Your task to perform on an android device: Search for the best rated 4k tvs on Walmart. Image 0: 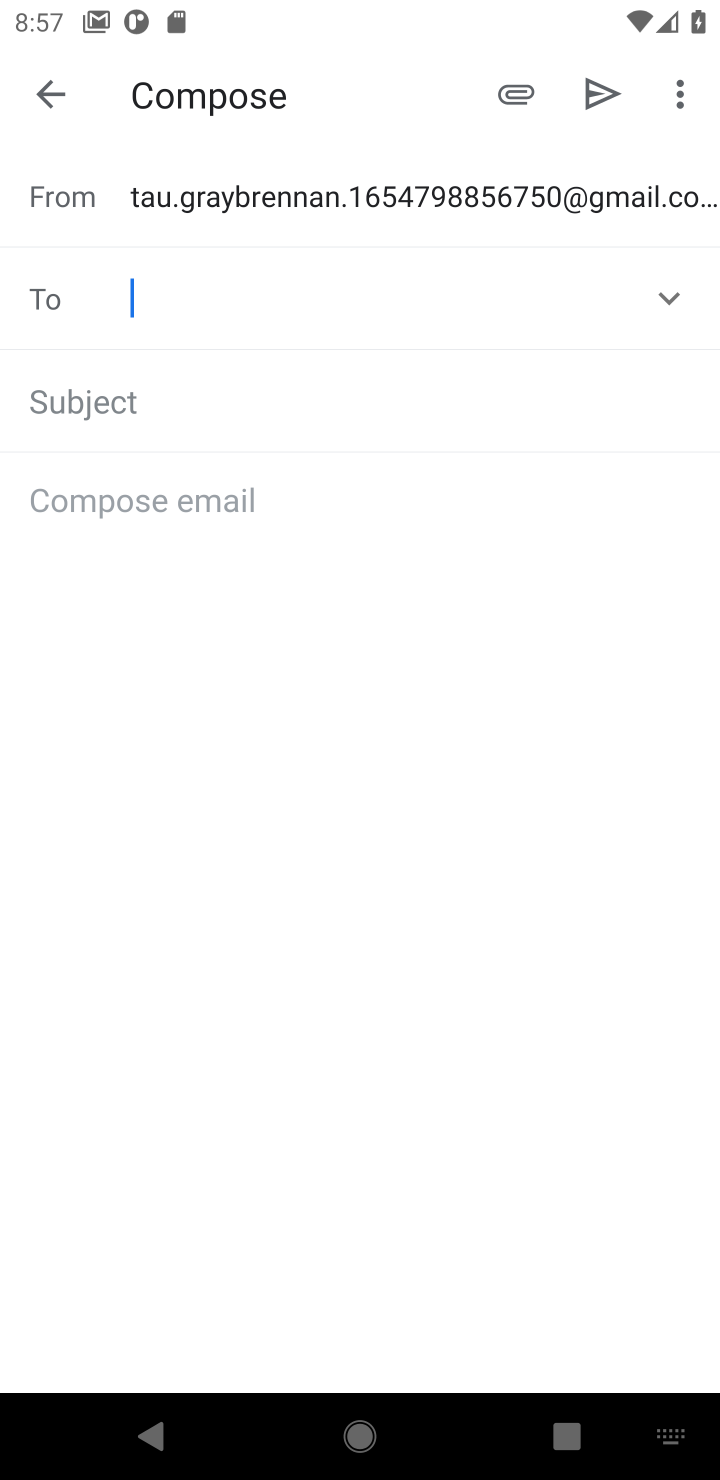
Step 0: press home button
Your task to perform on an android device: Search for the best rated 4k tvs on Walmart. Image 1: 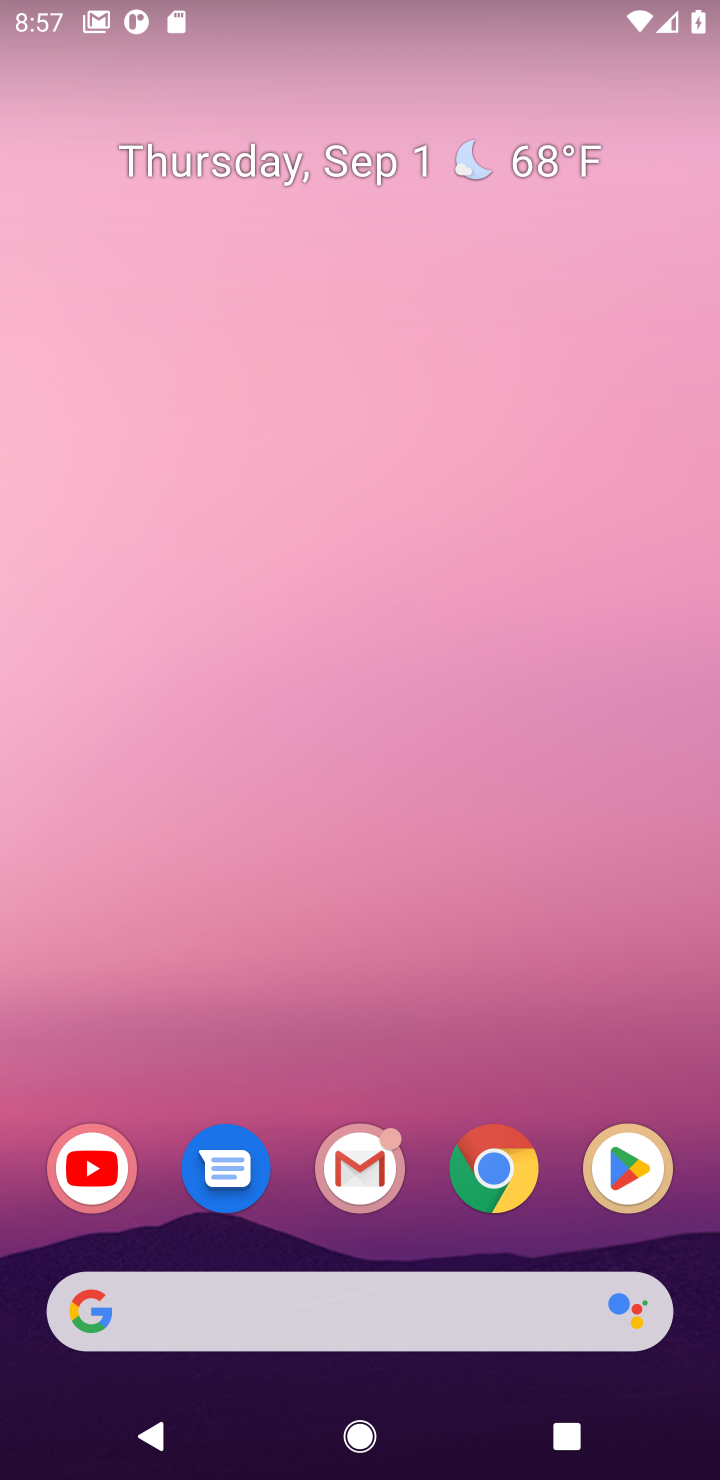
Step 1: click (356, 83)
Your task to perform on an android device: Search for the best rated 4k tvs on Walmart. Image 2: 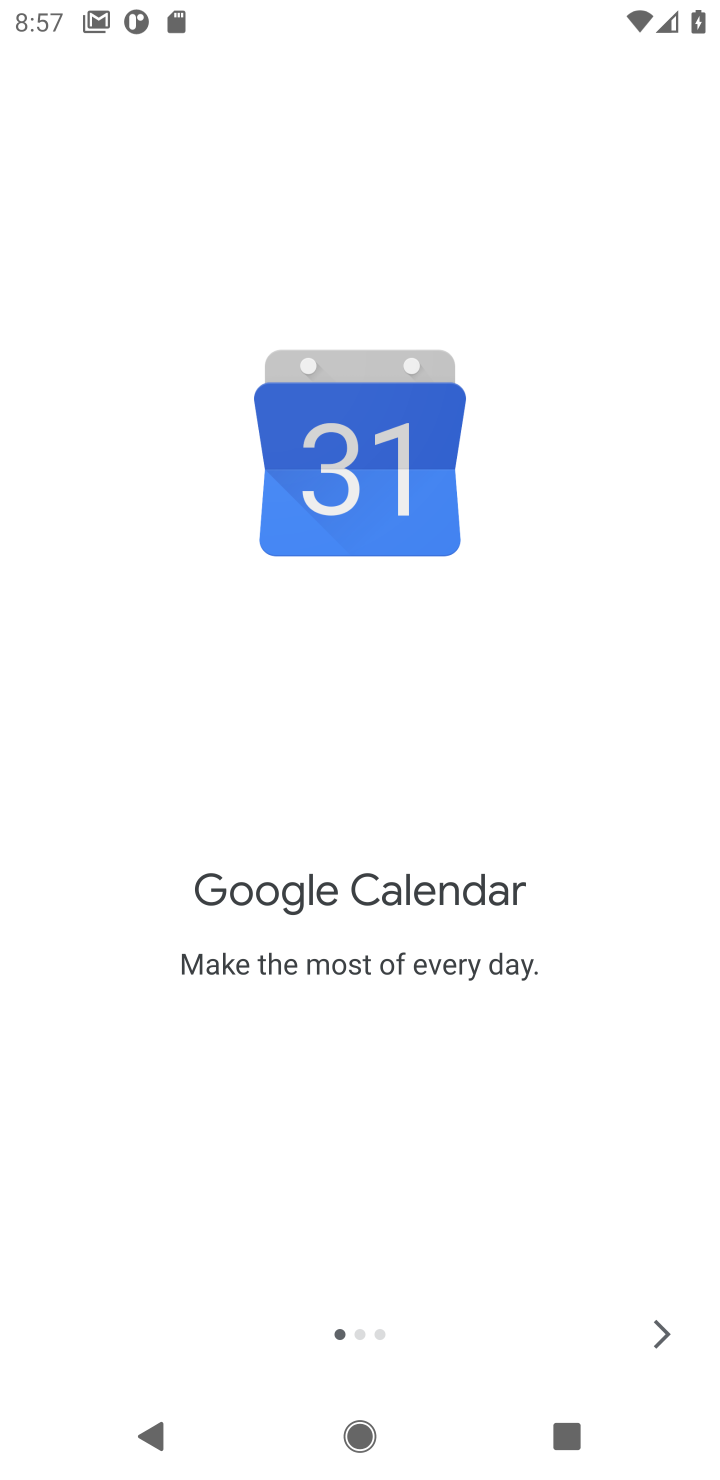
Step 2: press home button
Your task to perform on an android device: Search for the best rated 4k tvs on Walmart. Image 3: 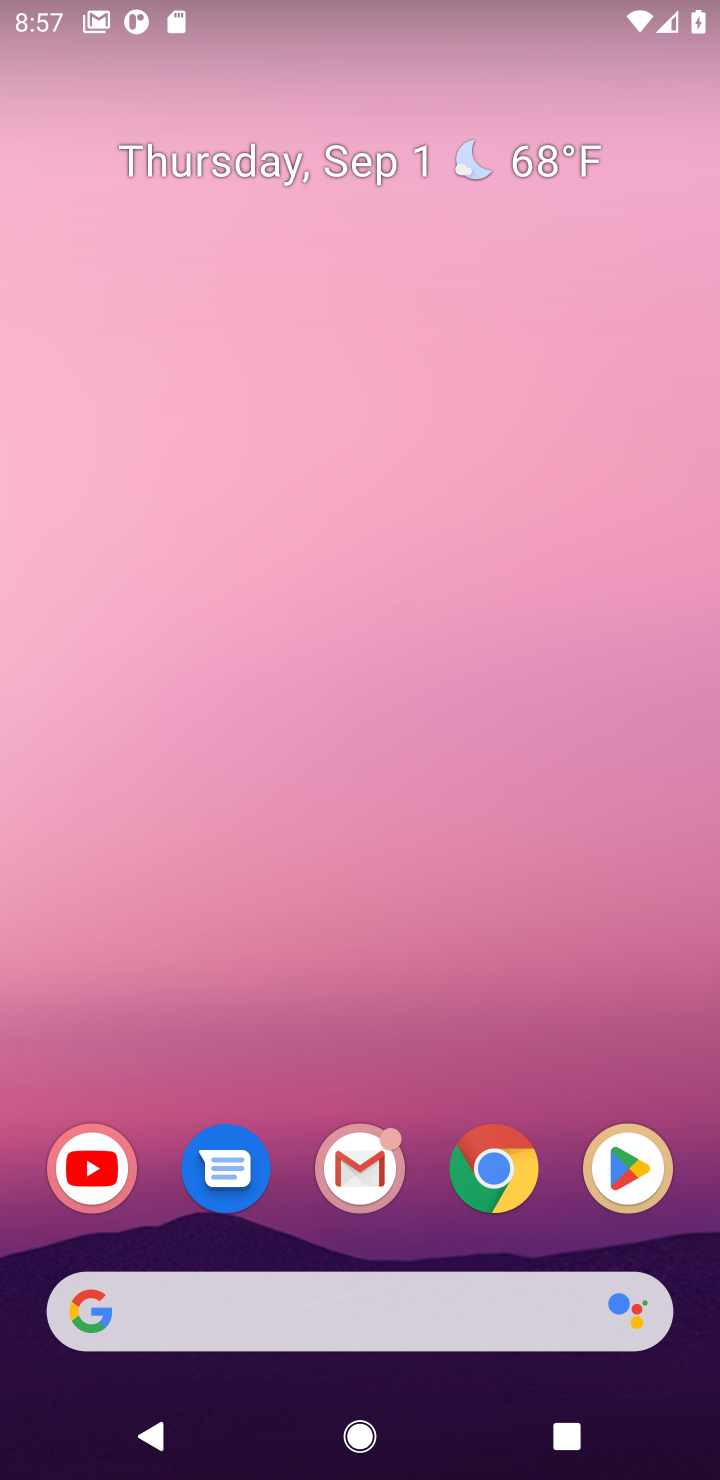
Step 3: drag from (276, 1281) to (411, 379)
Your task to perform on an android device: Search for the best rated 4k tvs on Walmart. Image 4: 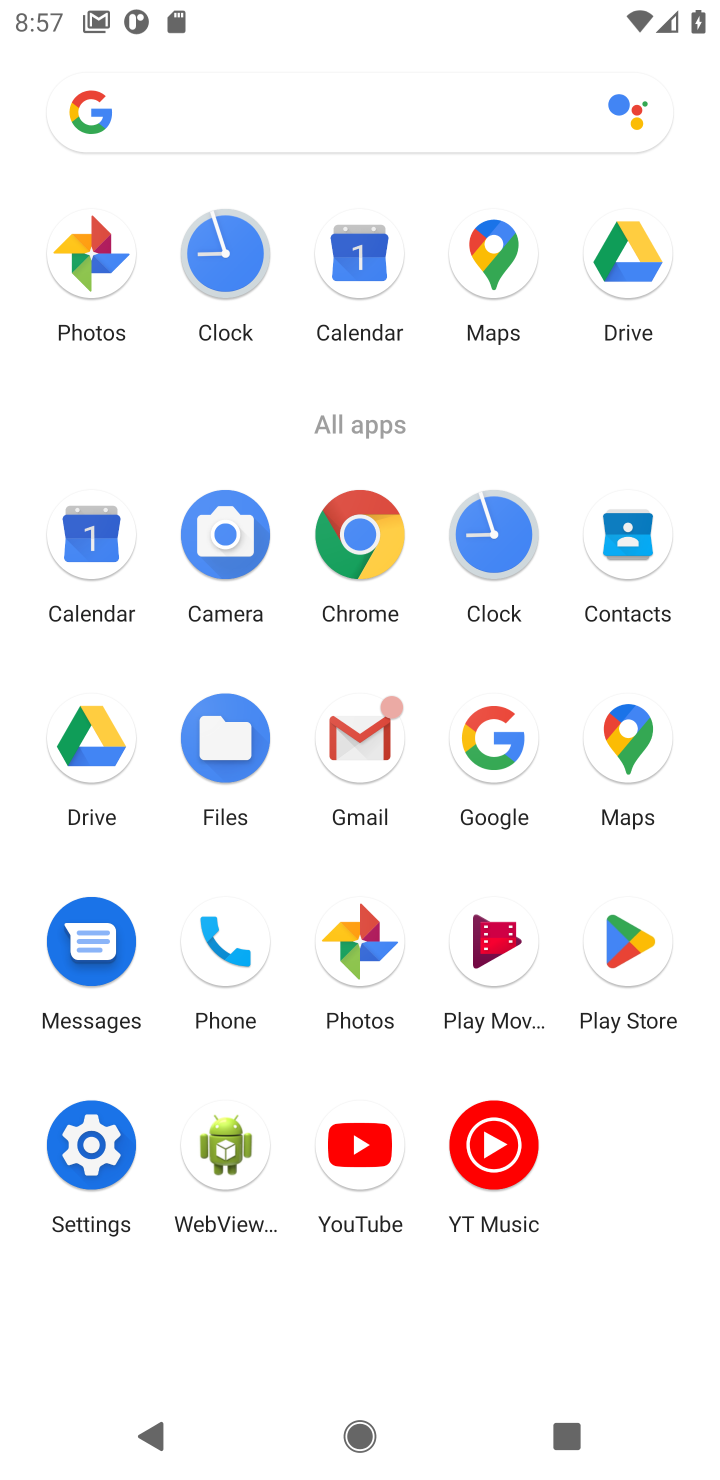
Step 4: click (496, 725)
Your task to perform on an android device: Search for the best rated 4k tvs on Walmart. Image 5: 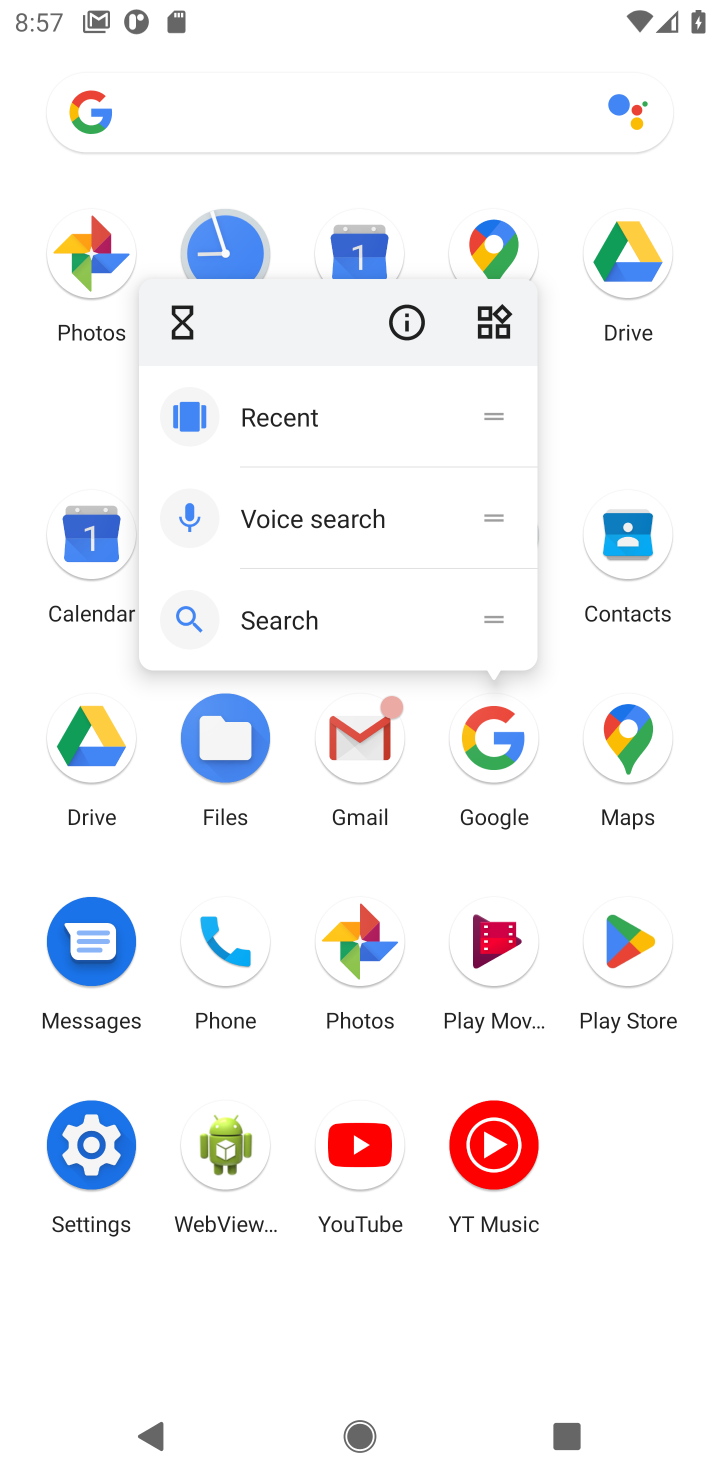
Step 5: click (497, 727)
Your task to perform on an android device: Search for the best rated 4k tvs on Walmart. Image 6: 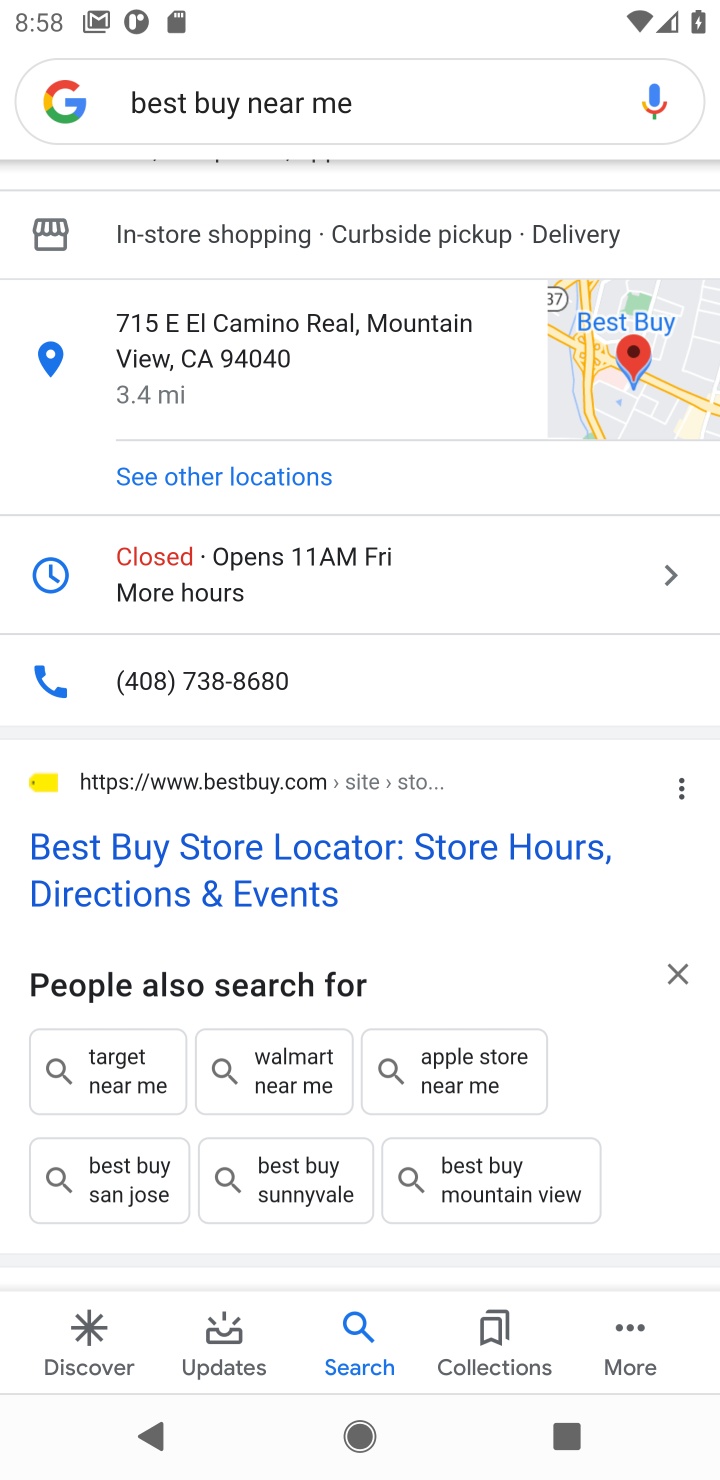
Step 6: click (458, 86)
Your task to perform on an android device: Search for the best rated 4k tvs on Walmart. Image 7: 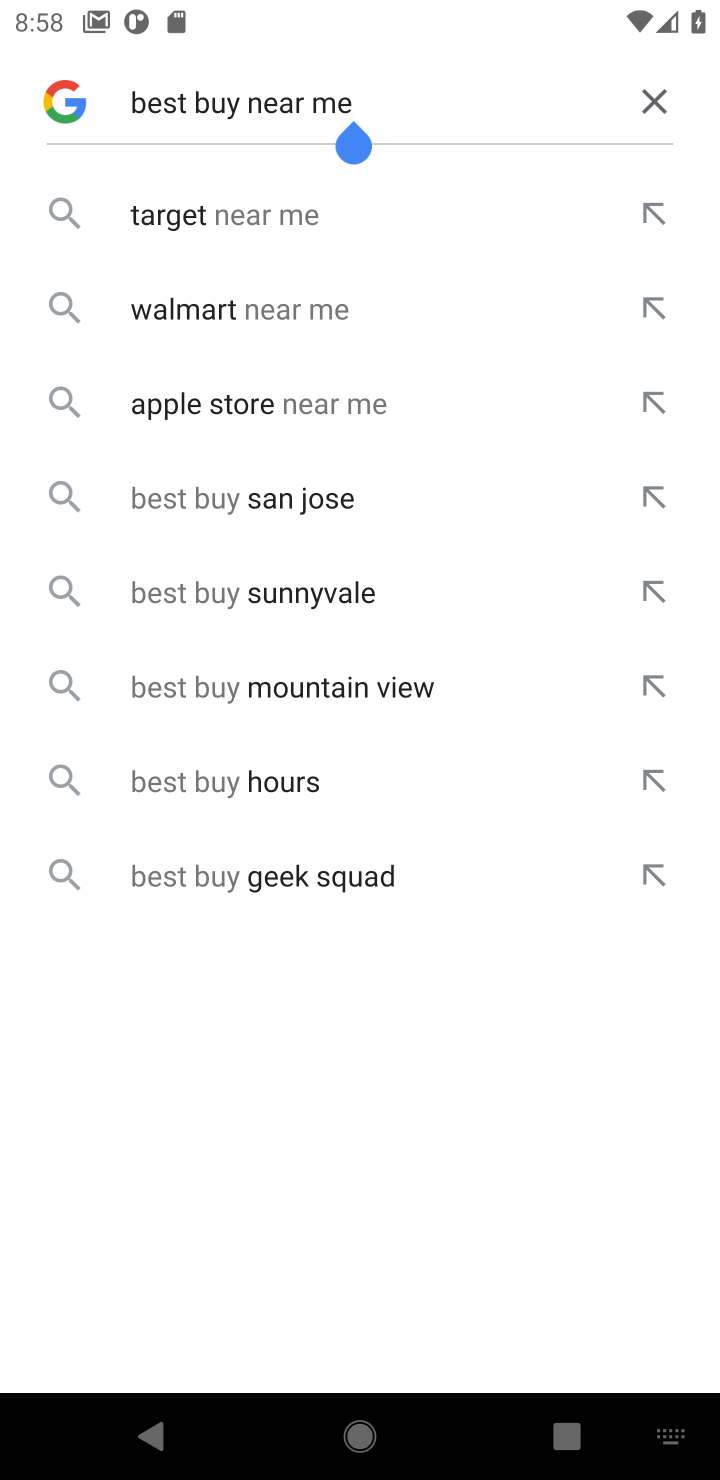
Step 7: click (648, 109)
Your task to perform on an android device: Search for the best rated 4k tvs on Walmart. Image 8: 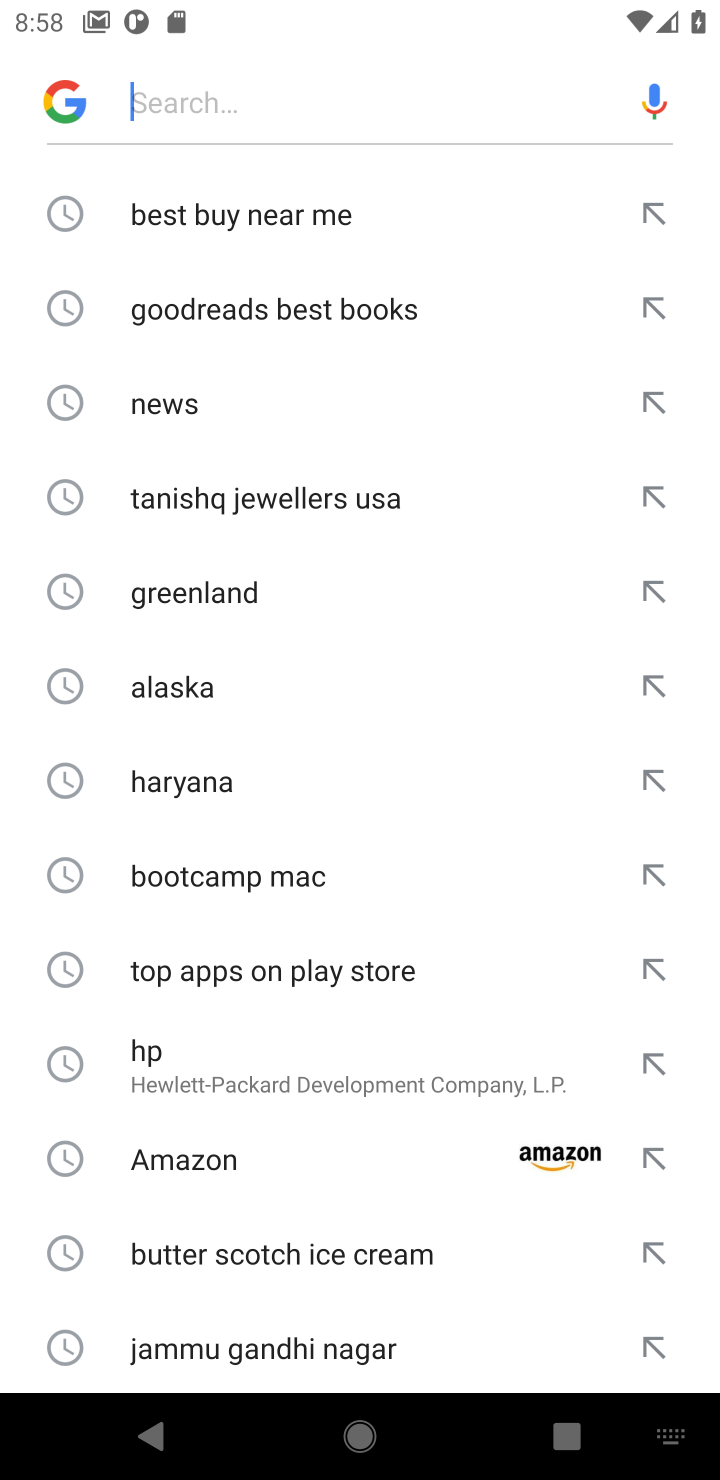
Step 8: click (416, 114)
Your task to perform on an android device: Search for the best rated 4k tvs on Walmart. Image 9: 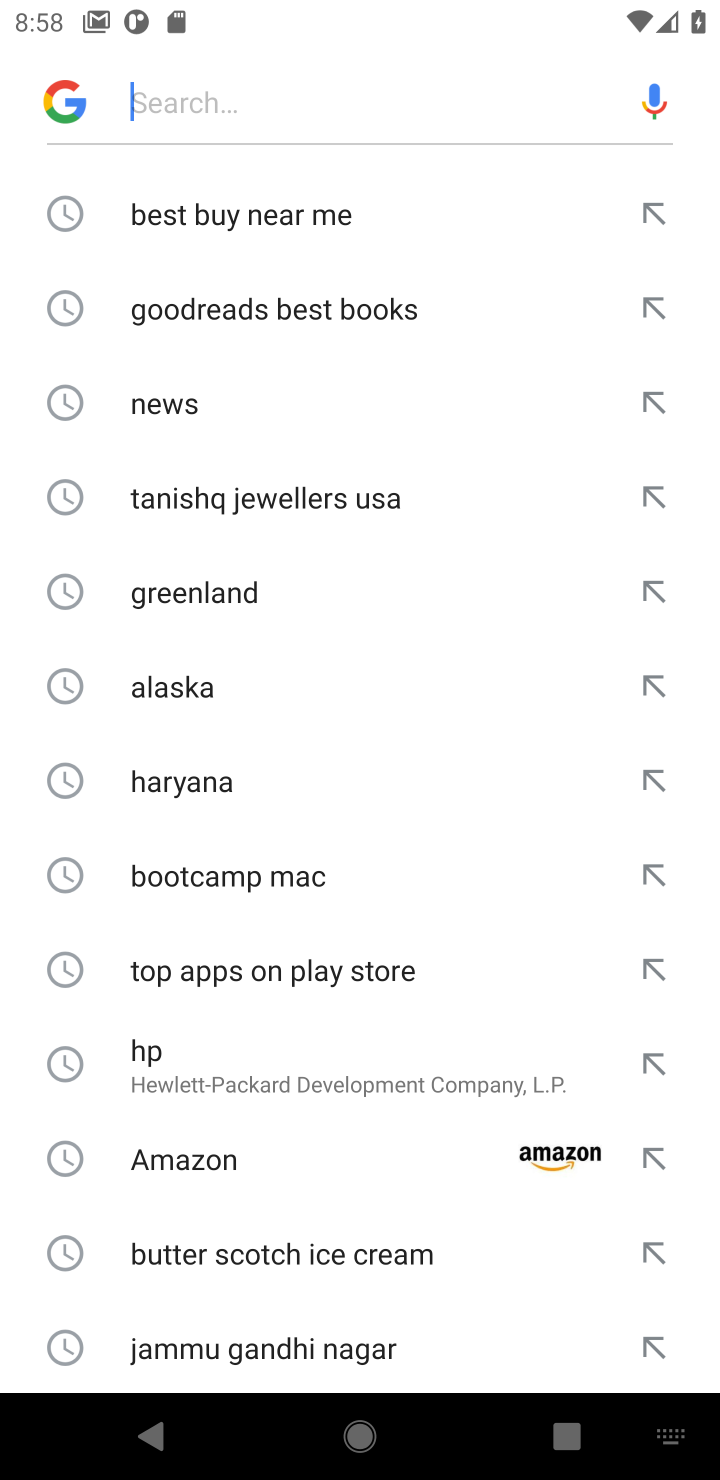
Step 9: type "Walmart "
Your task to perform on an android device: Search for the best rated 4k tvs on Walmart. Image 10: 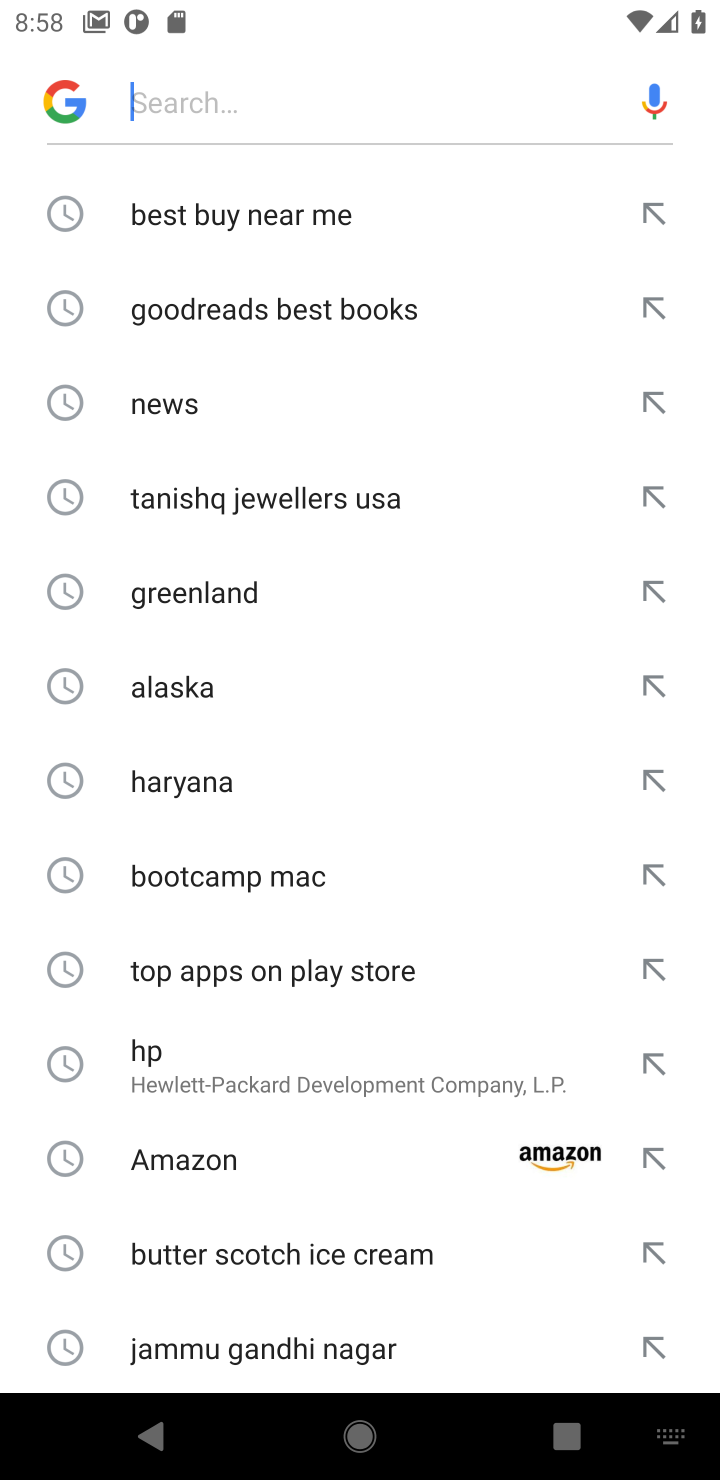
Step 10: click (313, 94)
Your task to perform on an android device: Search for the best rated 4k tvs on Walmart. Image 11: 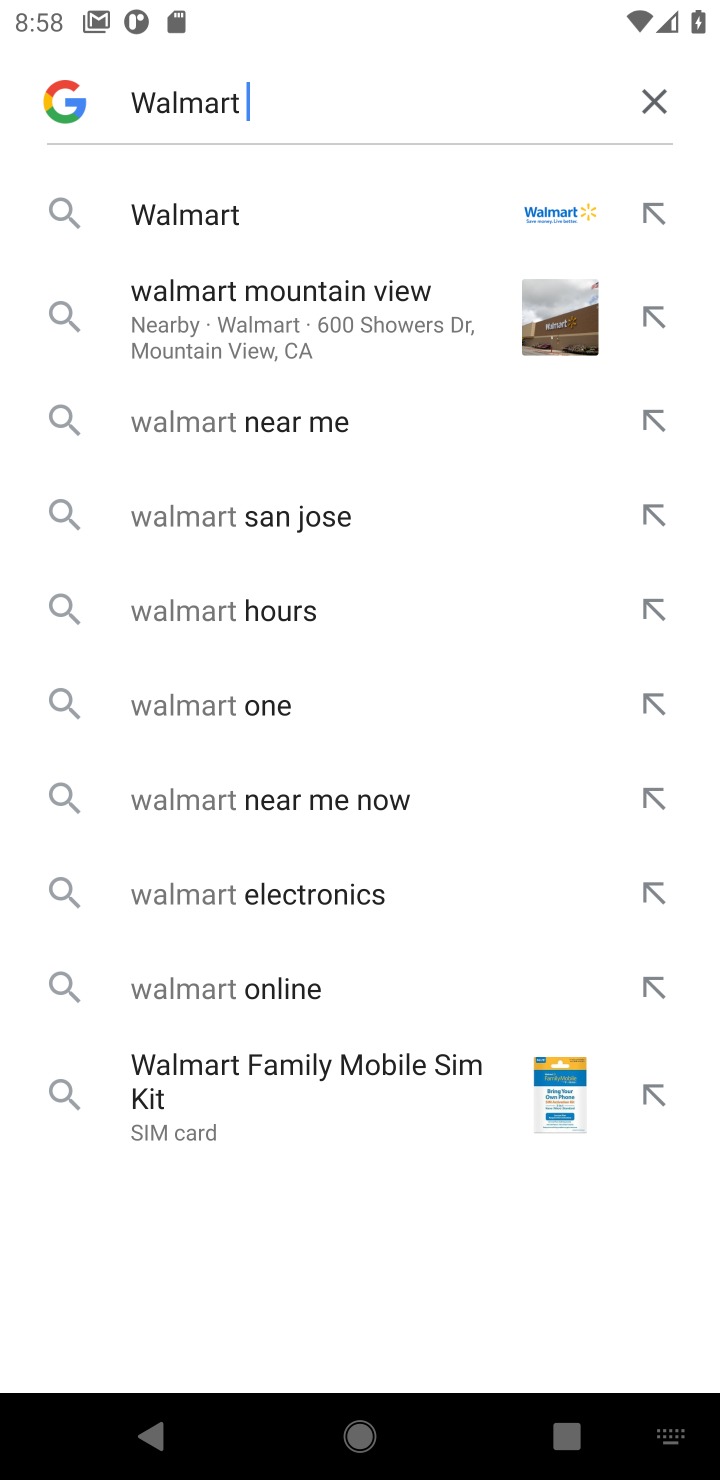
Step 11: type "Walmart. "
Your task to perform on an android device: Search for the best rated 4k tvs on Walmart. Image 12: 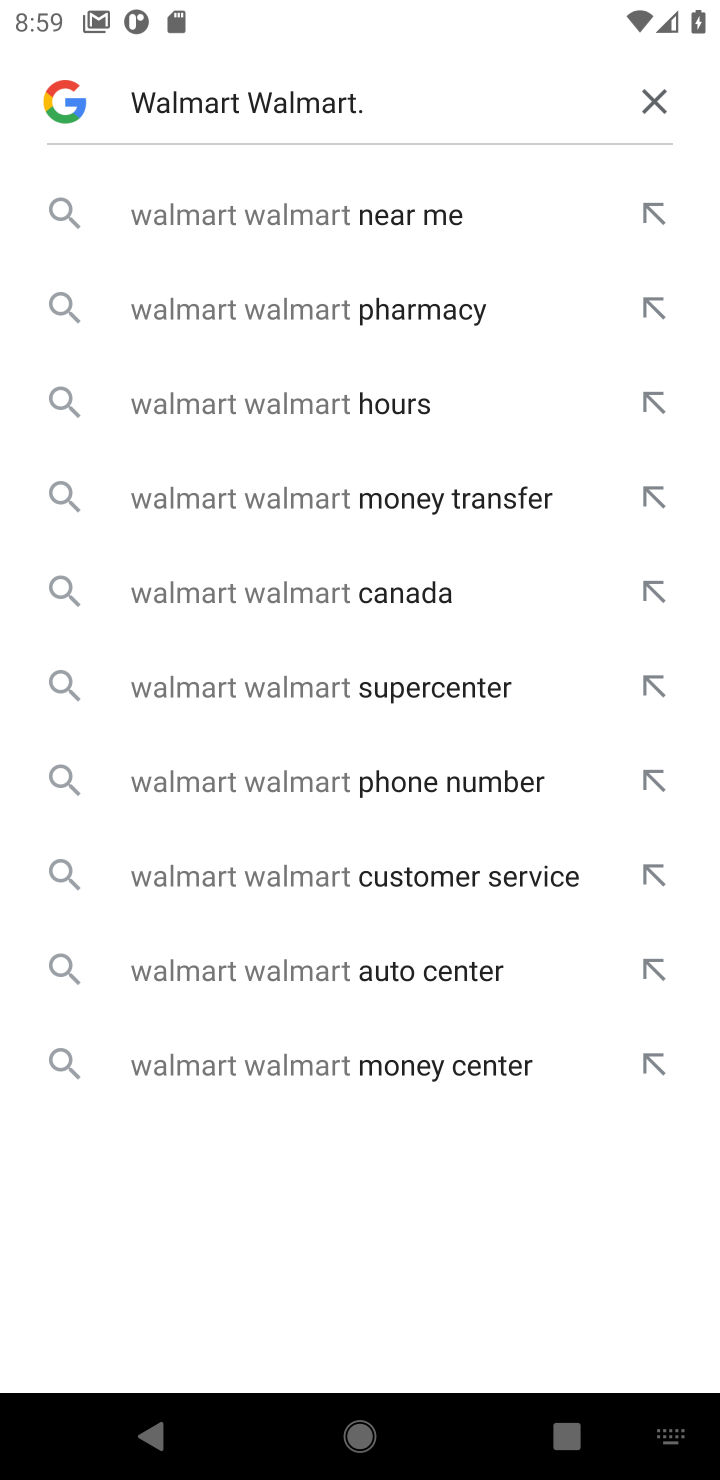
Step 12: click (267, 86)
Your task to perform on an android device: Search for the best rated 4k tvs on Walmart. Image 13: 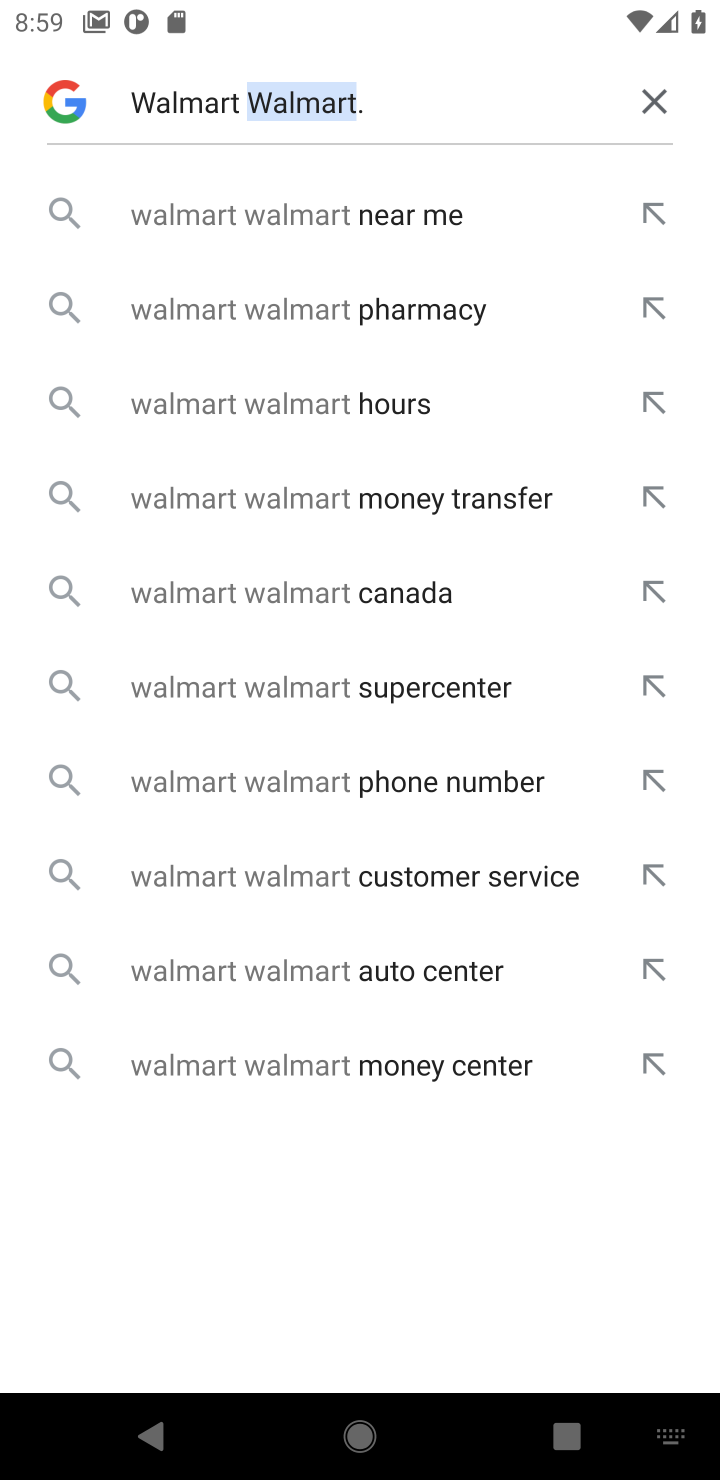
Step 13: click (275, 104)
Your task to perform on an android device: Search for the best rated 4k tvs on Walmart. Image 14: 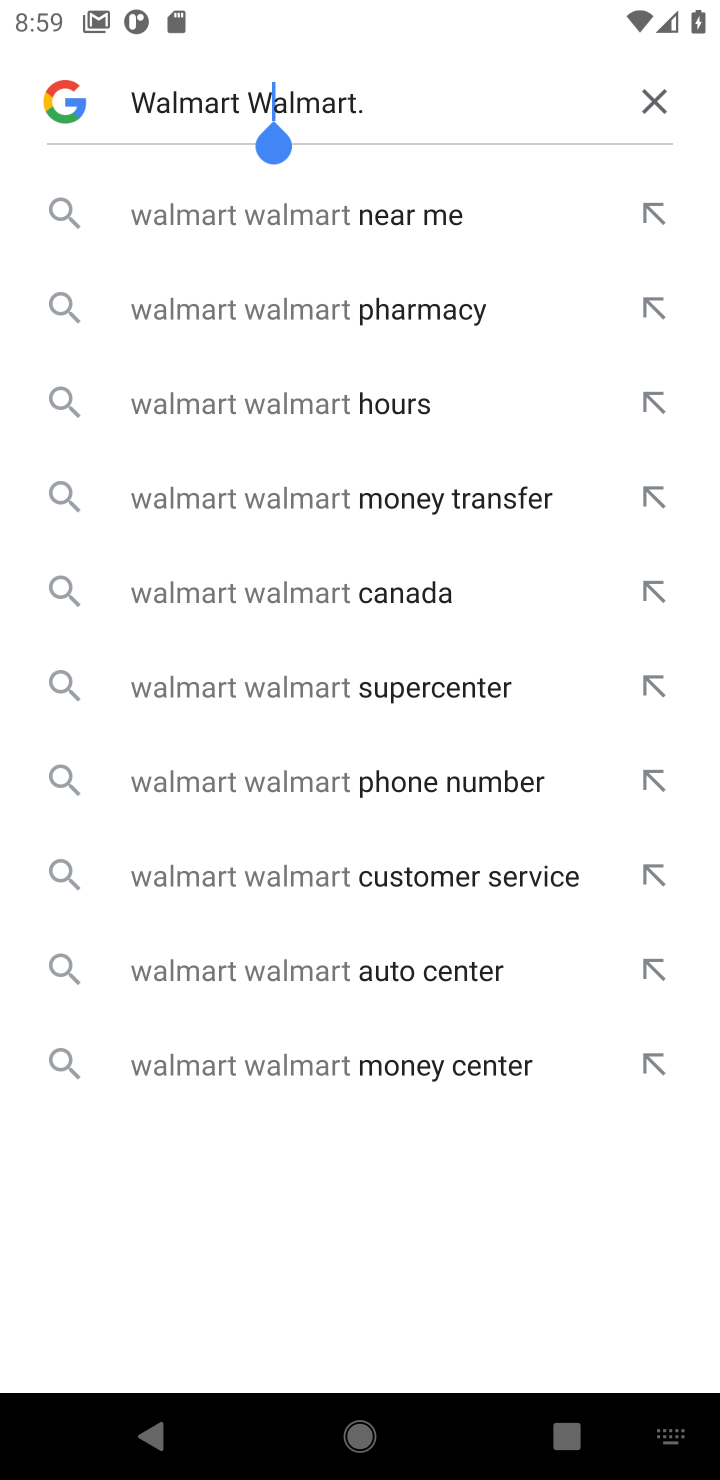
Step 14: click (303, 87)
Your task to perform on an android device: Search for the best rated 4k tvs on Walmart. Image 15: 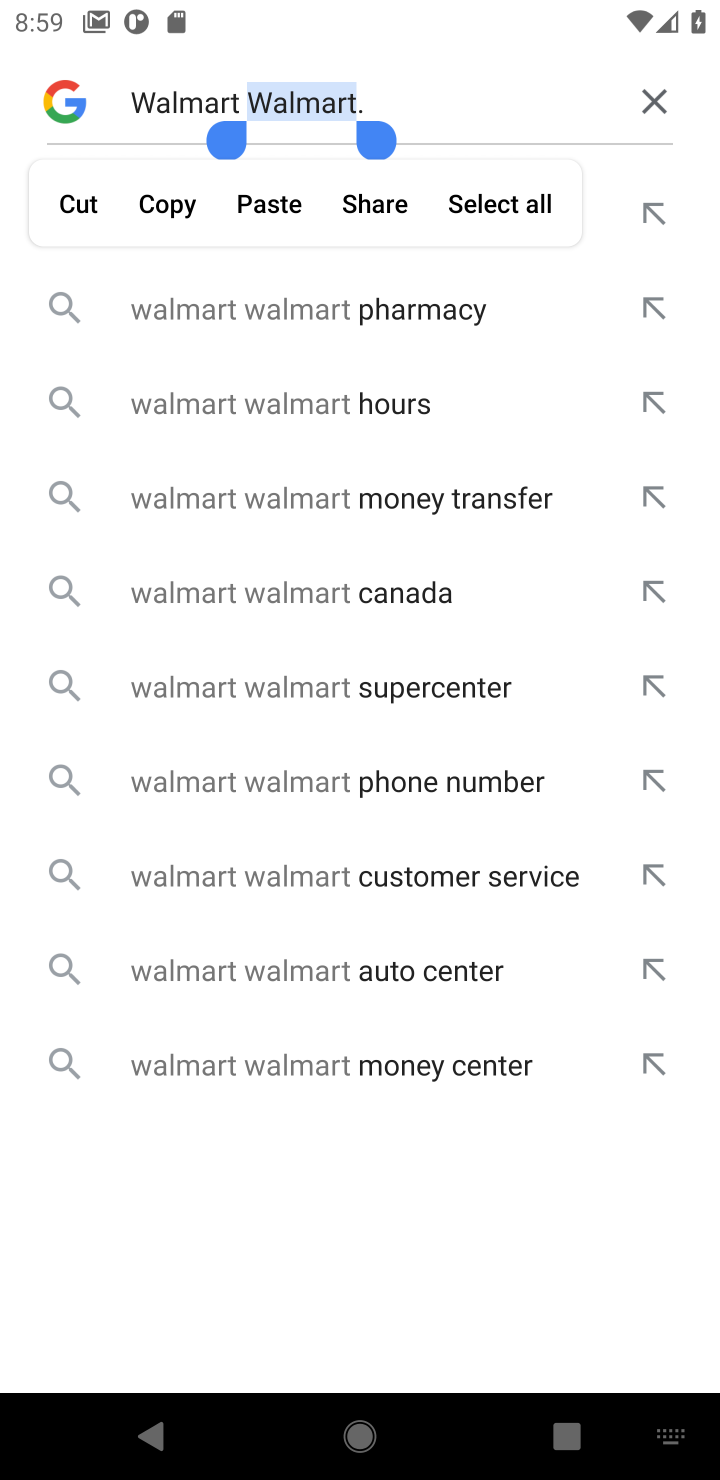
Step 15: click (88, 198)
Your task to perform on an android device: Search for the best rated 4k tvs on Walmart. Image 16: 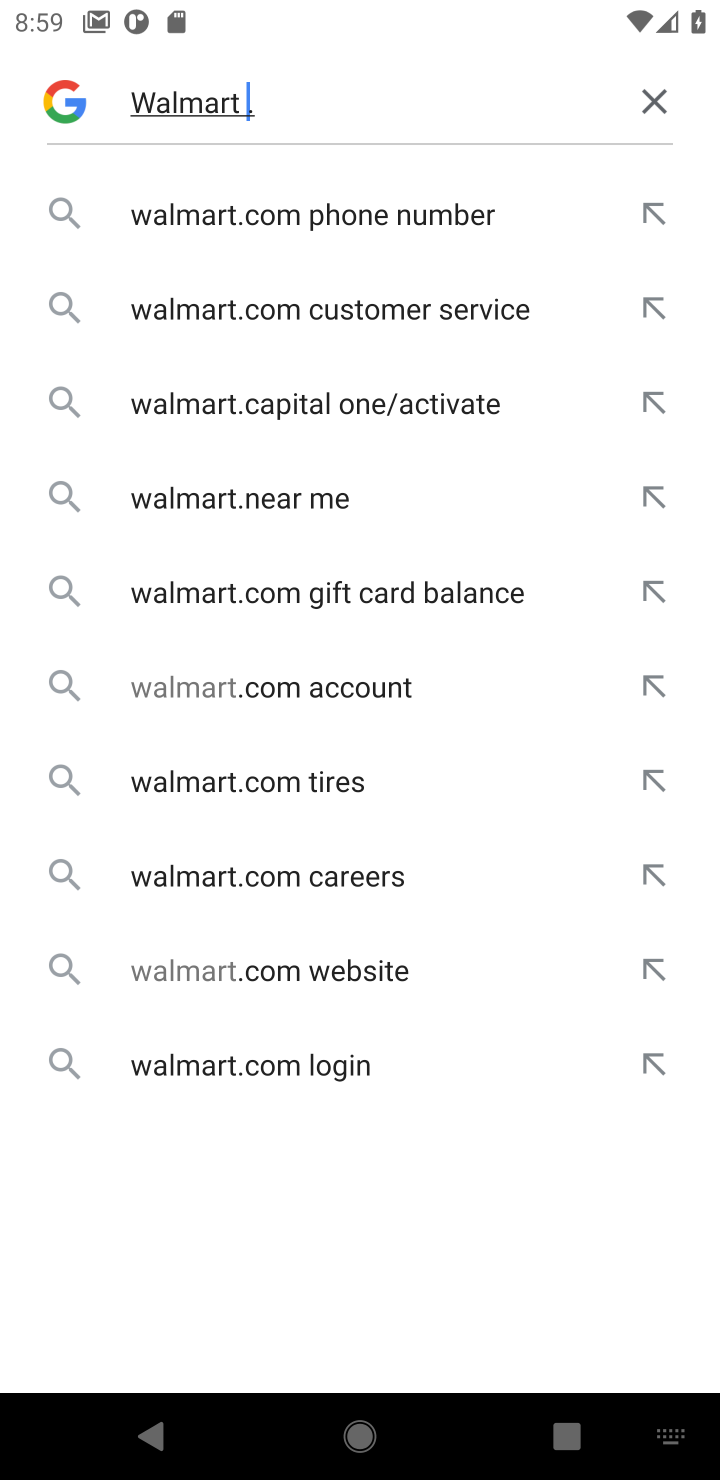
Step 16: click (352, 347)
Your task to perform on an android device: Search for the best rated 4k tvs on Walmart. Image 17: 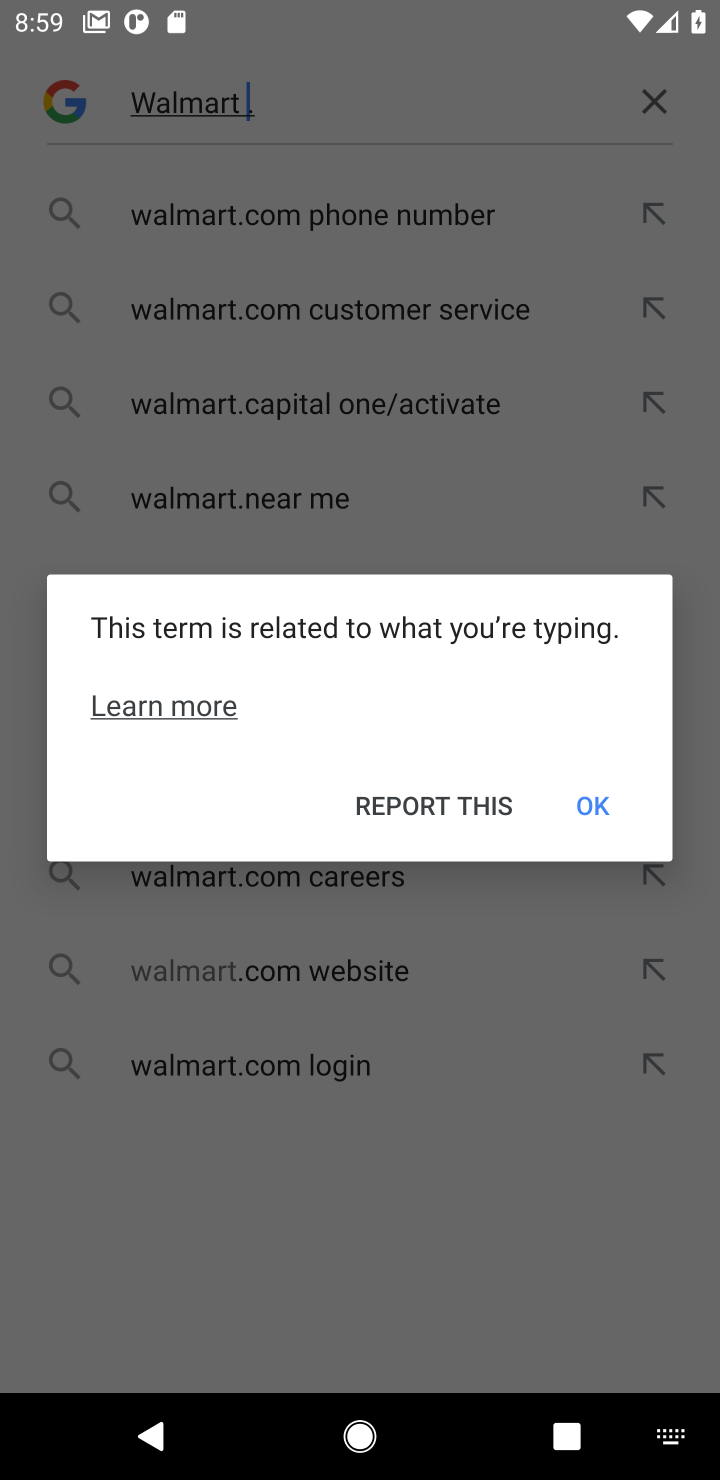
Step 17: click (571, 775)
Your task to perform on an android device: Search for the best rated 4k tvs on Walmart. Image 18: 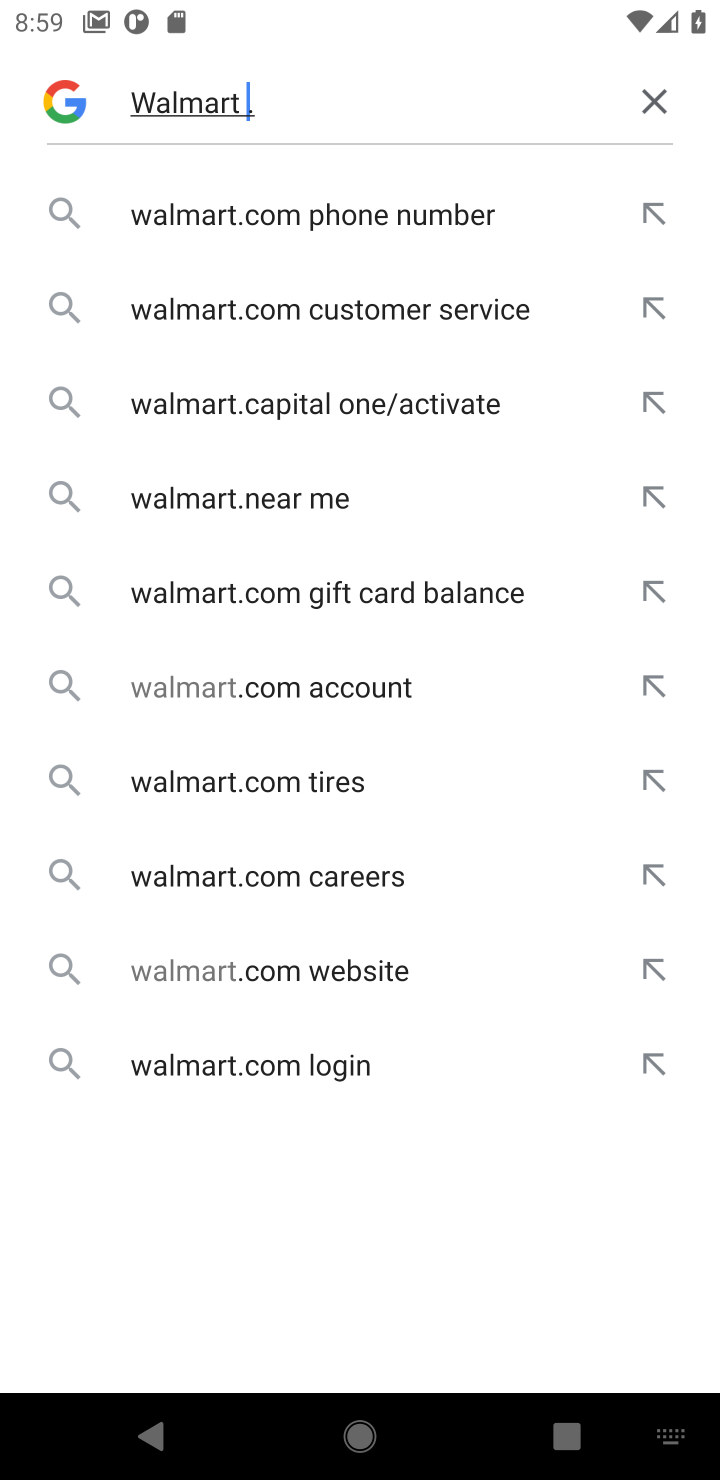
Step 18: click (263, 509)
Your task to perform on an android device: Search for the best rated 4k tvs on Walmart. Image 19: 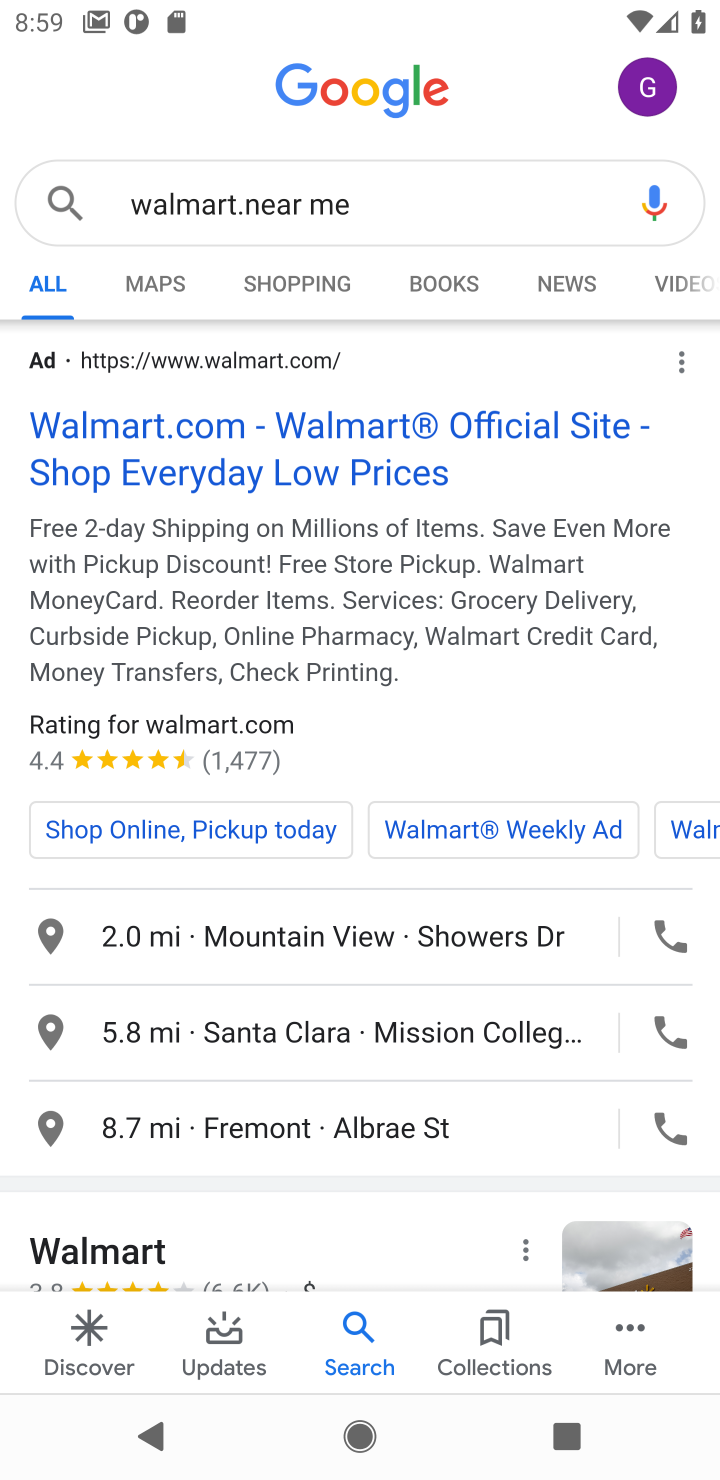
Step 19: click (299, 436)
Your task to perform on an android device: Search for the best rated 4k tvs on Walmart. Image 20: 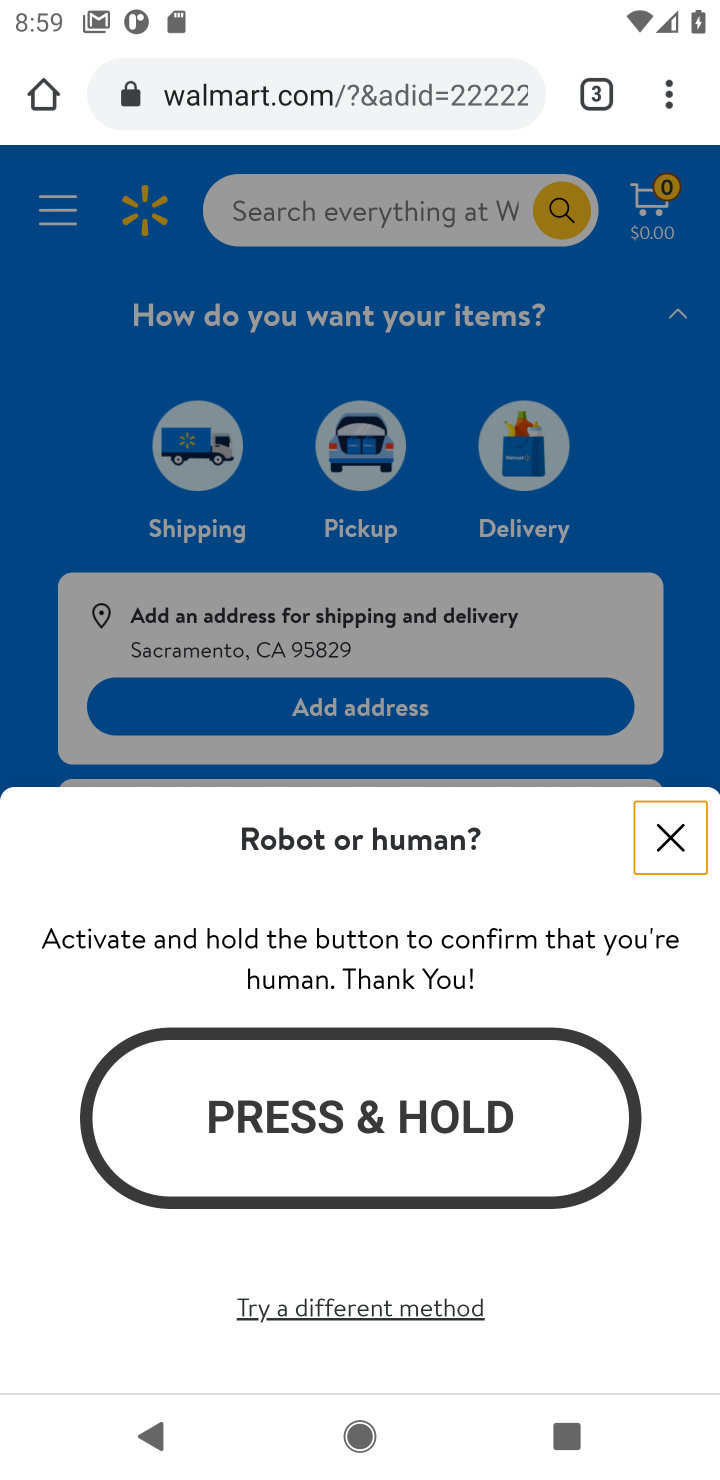
Step 20: click (339, 212)
Your task to perform on an android device: Search for the best rated 4k tvs on Walmart. Image 21: 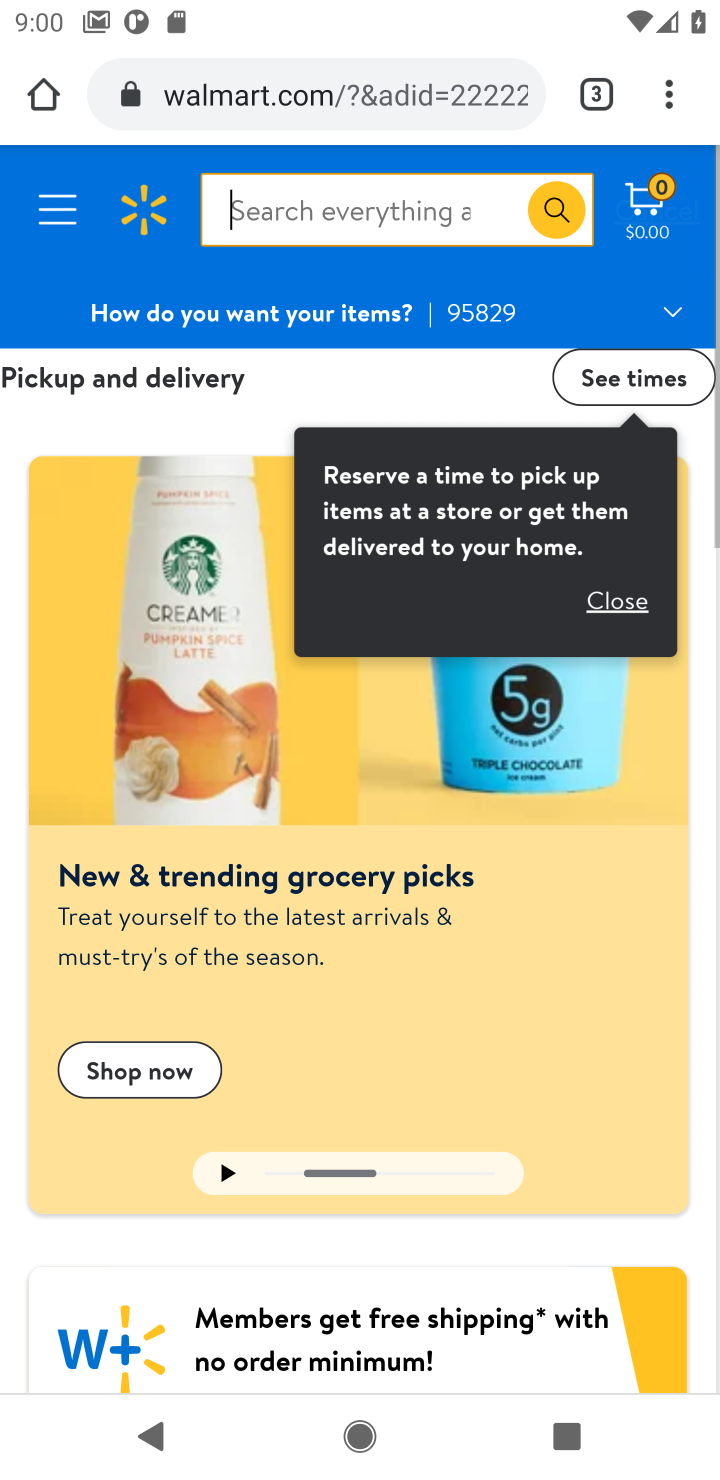
Step 21: click (339, 195)
Your task to perform on an android device: Search for the best rated 4k tvs on Walmart. Image 22: 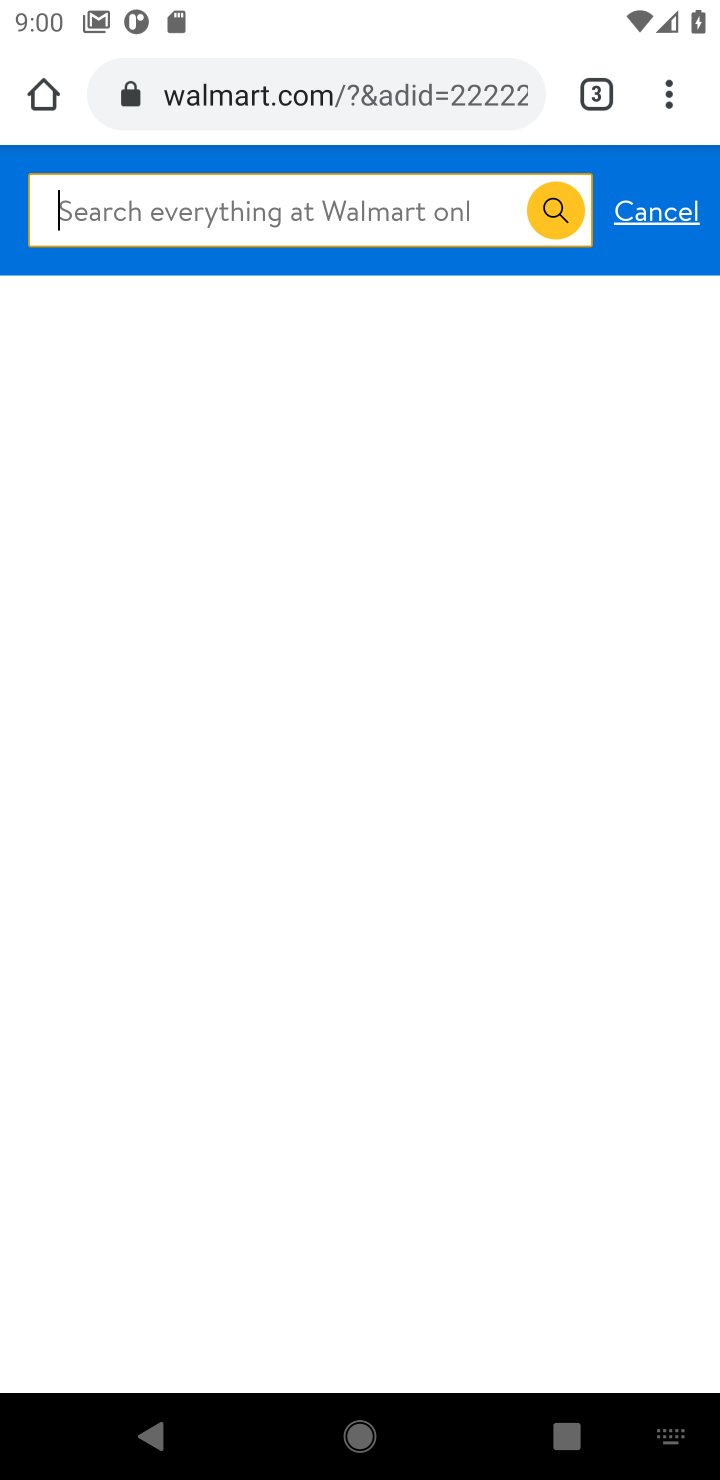
Step 22: type " 4k tvs  "
Your task to perform on an android device: Search for the best rated 4k tvs on Walmart. Image 23: 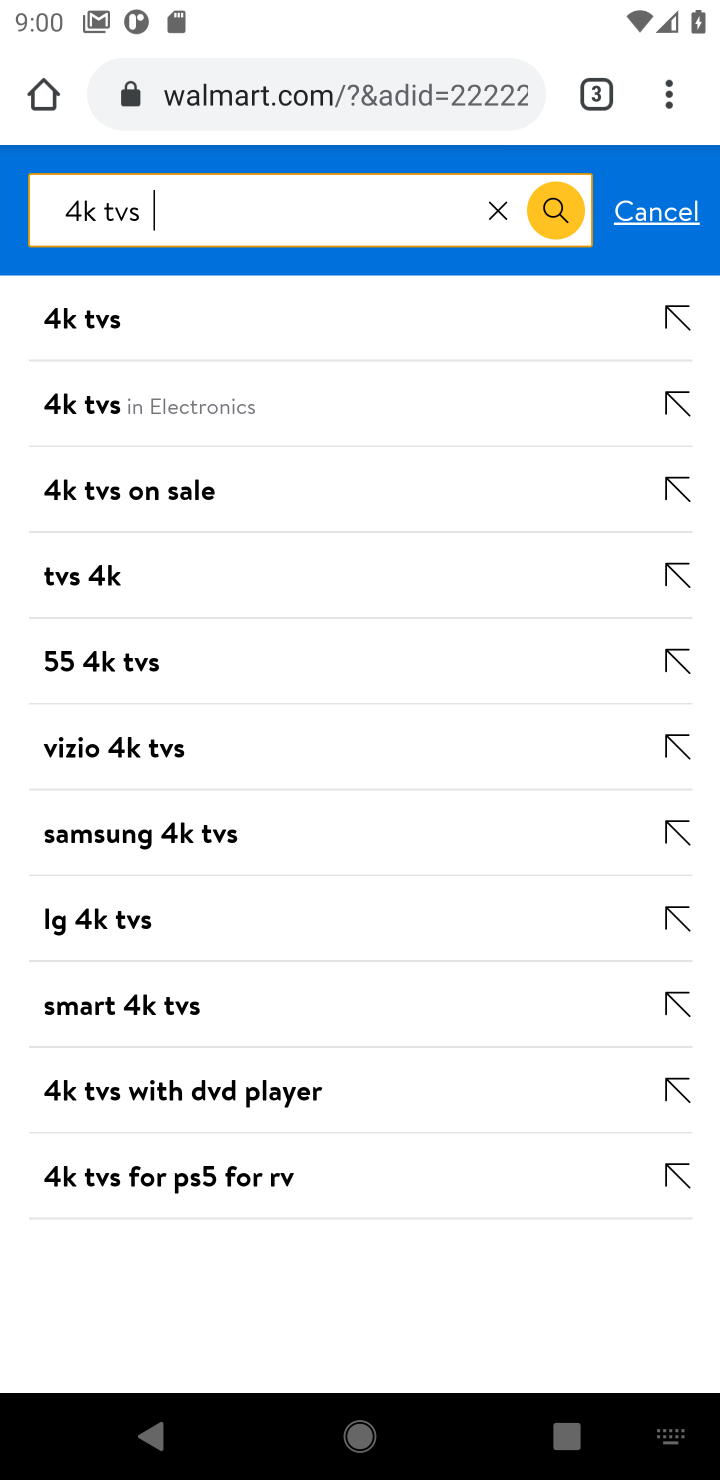
Step 23: click (242, 327)
Your task to perform on an android device: Search for the best rated 4k tvs on Walmart. Image 24: 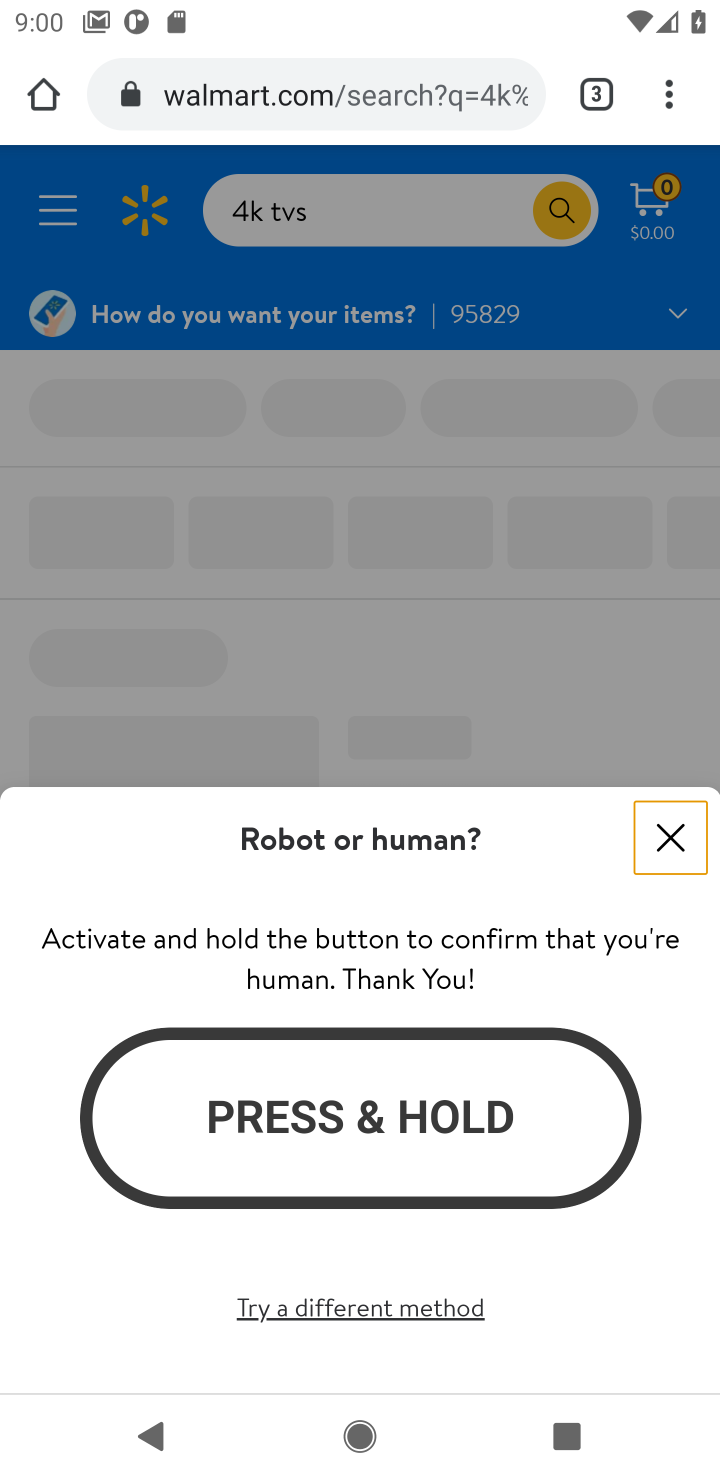
Step 24: click (681, 836)
Your task to perform on an android device: Search for the best rated 4k tvs on Walmart. Image 25: 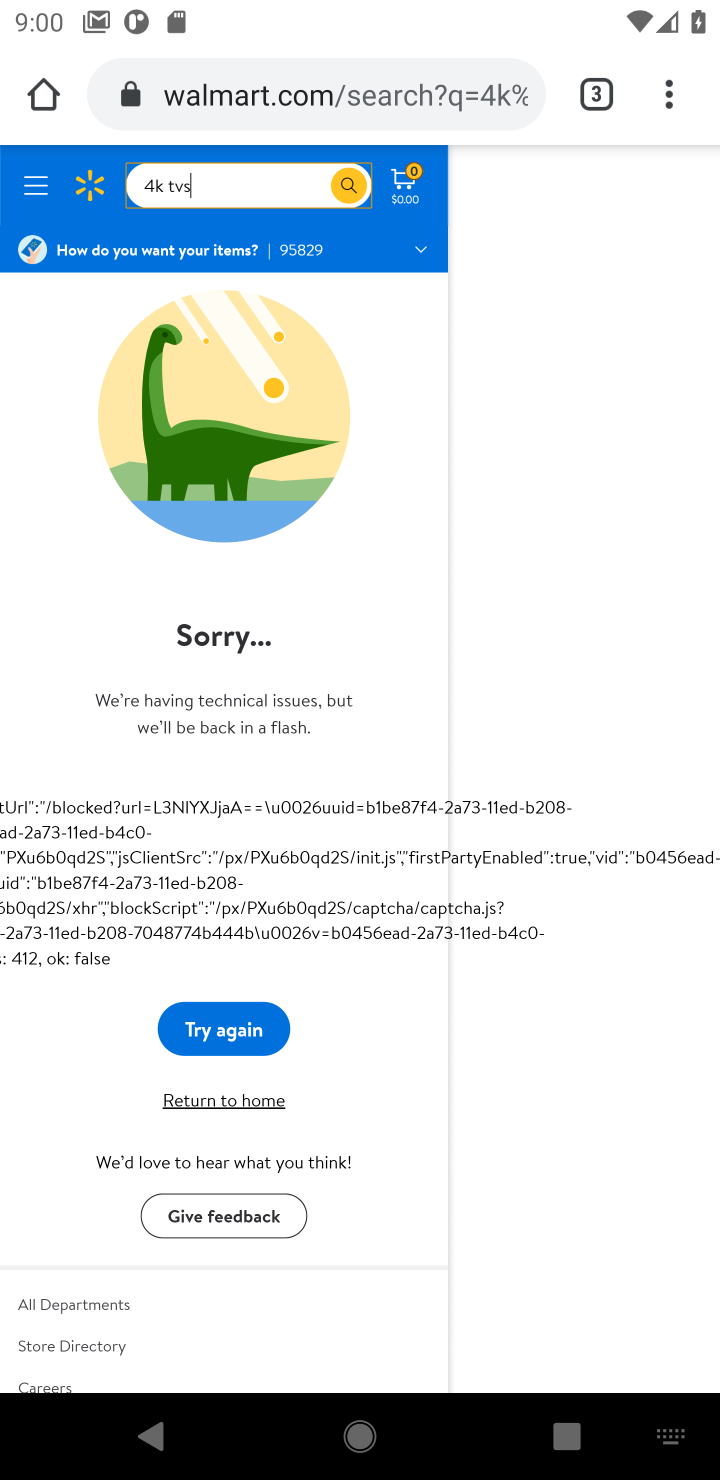
Step 25: click (226, 995)
Your task to perform on an android device: Search for the best rated 4k tvs on Walmart. Image 26: 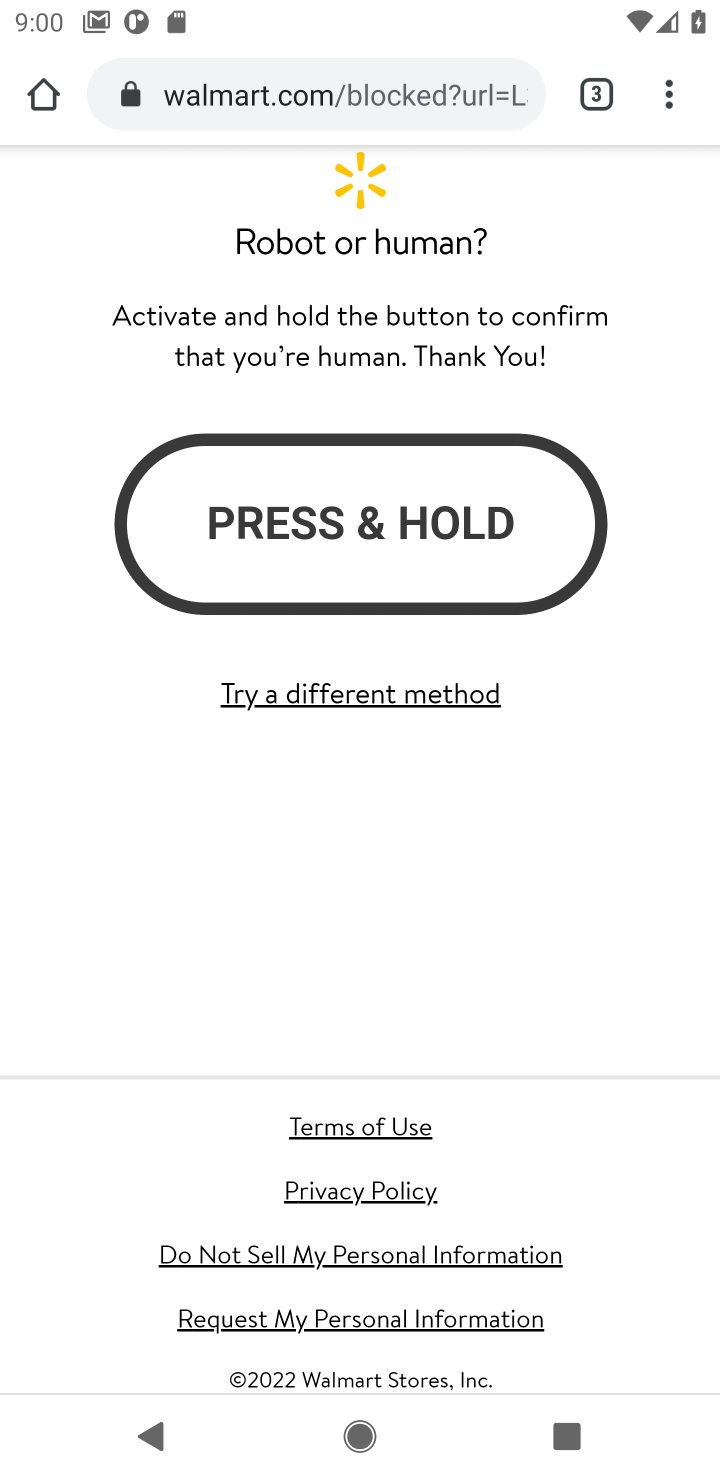
Step 26: click (393, 547)
Your task to perform on an android device: Search for the best rated 4k tvs on Walmart. Image 27: 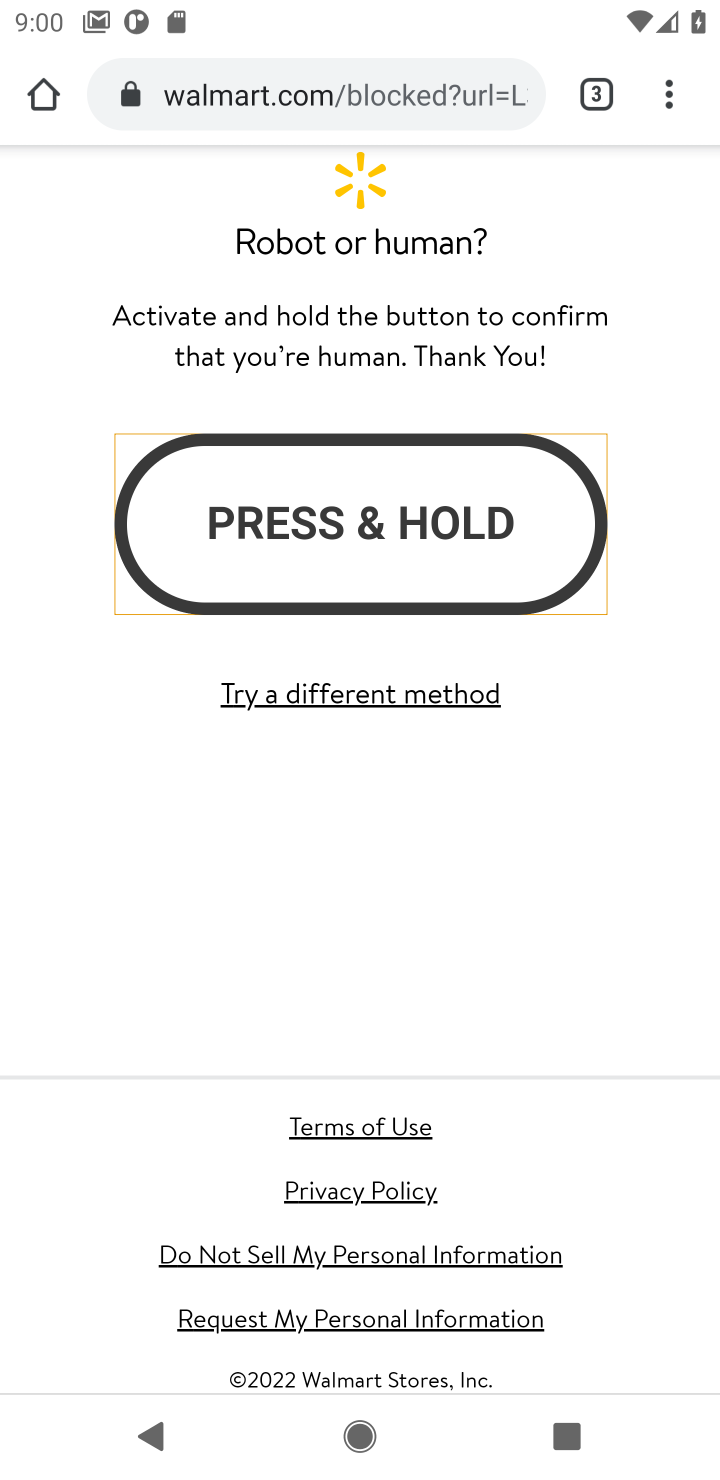
Step 27: click (386, 546)
Your task to perform on an android device: Search for the best rated 4k tvs on Walmart. Image 28: 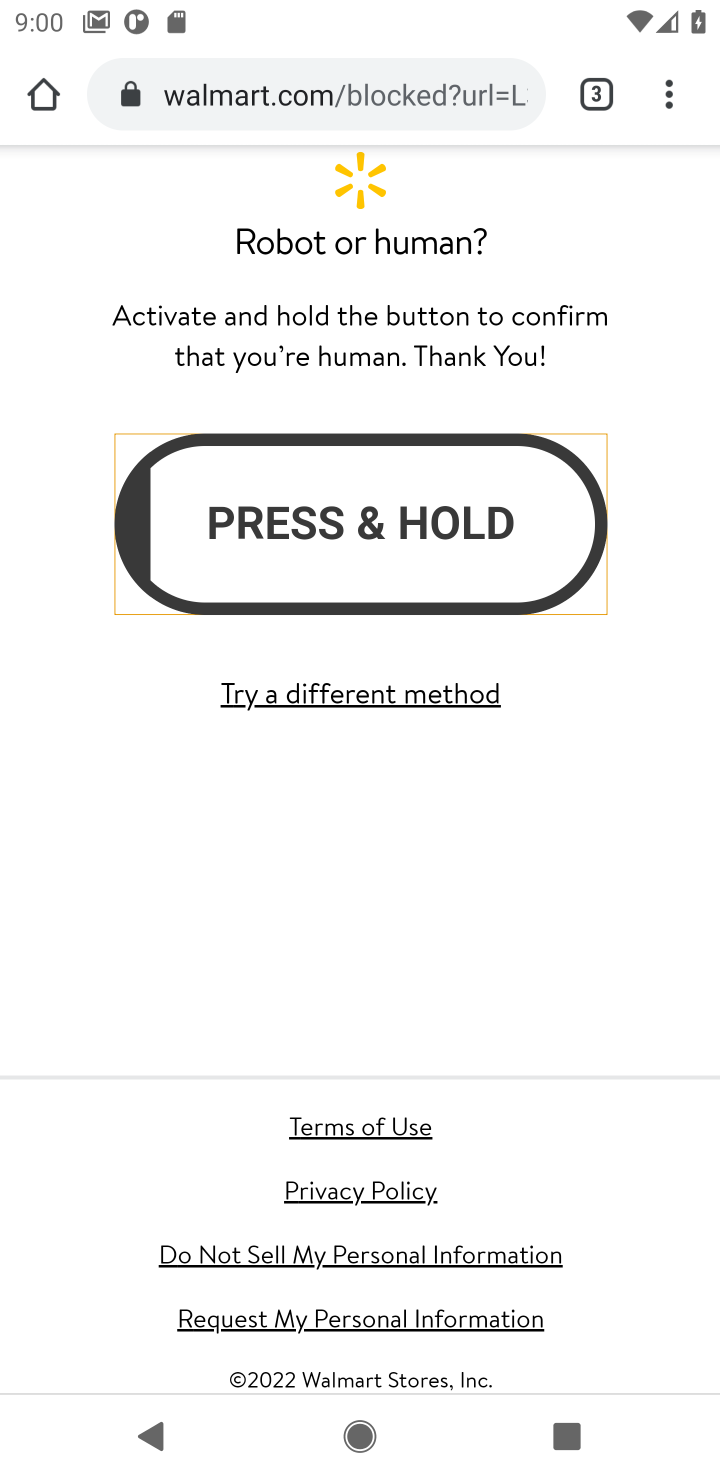
Step 28: click (336, 1259)
Your task to perform on an android device: Search for the best rated 4k tvs on Walmart. Image 29: 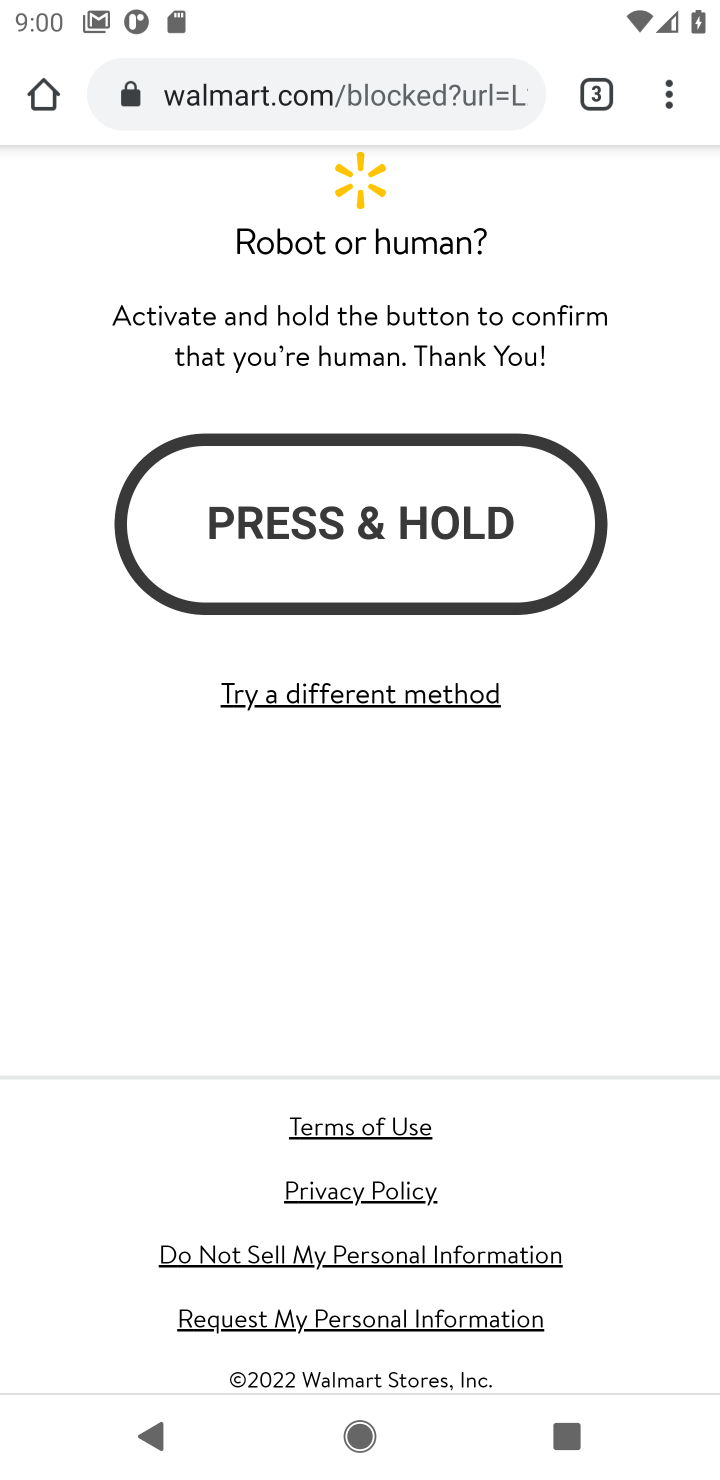
Step 29: press back button
Your task to perform on an android device: Search for the best rated 4k tvs on Walmart. Image 30: 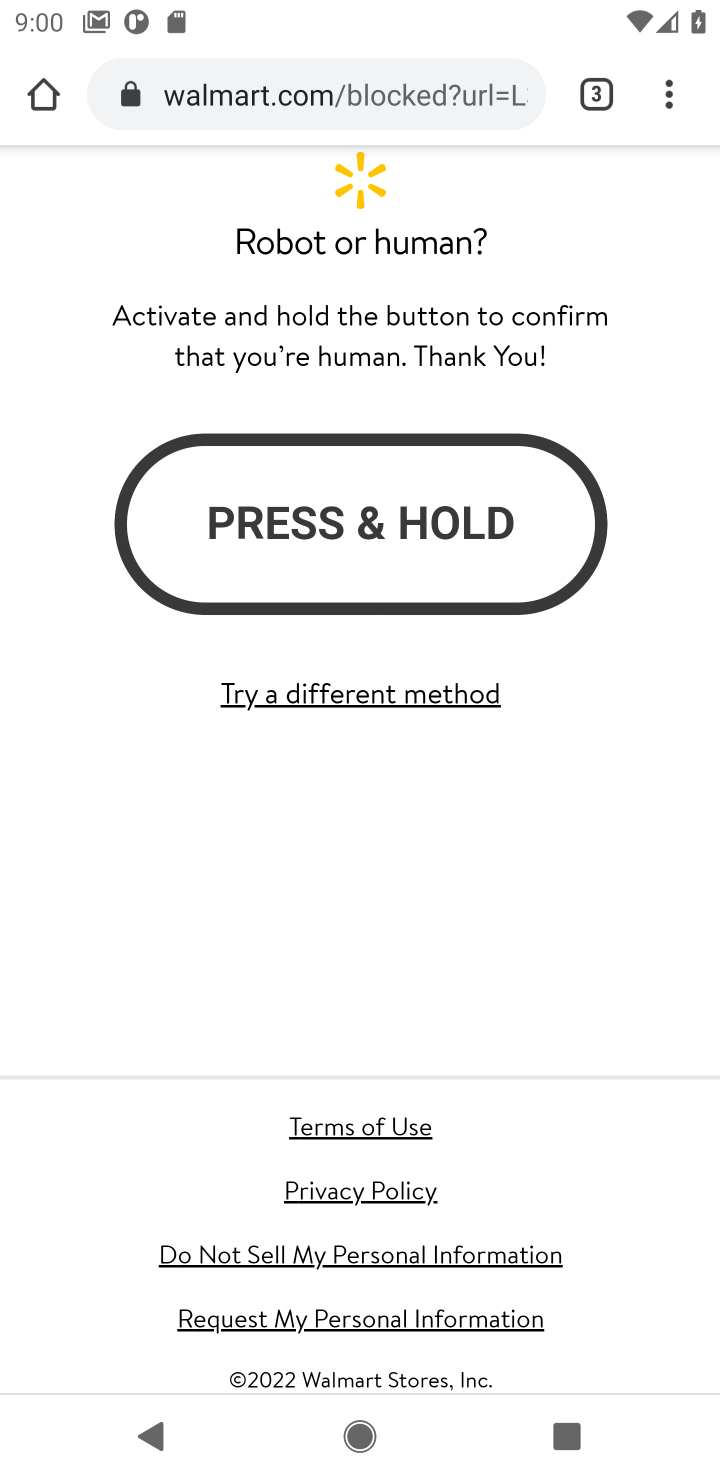
Step 30: press back button
Your task to perform on an android device: Search for the best rated 4k tvs on Walmart. Image 31: 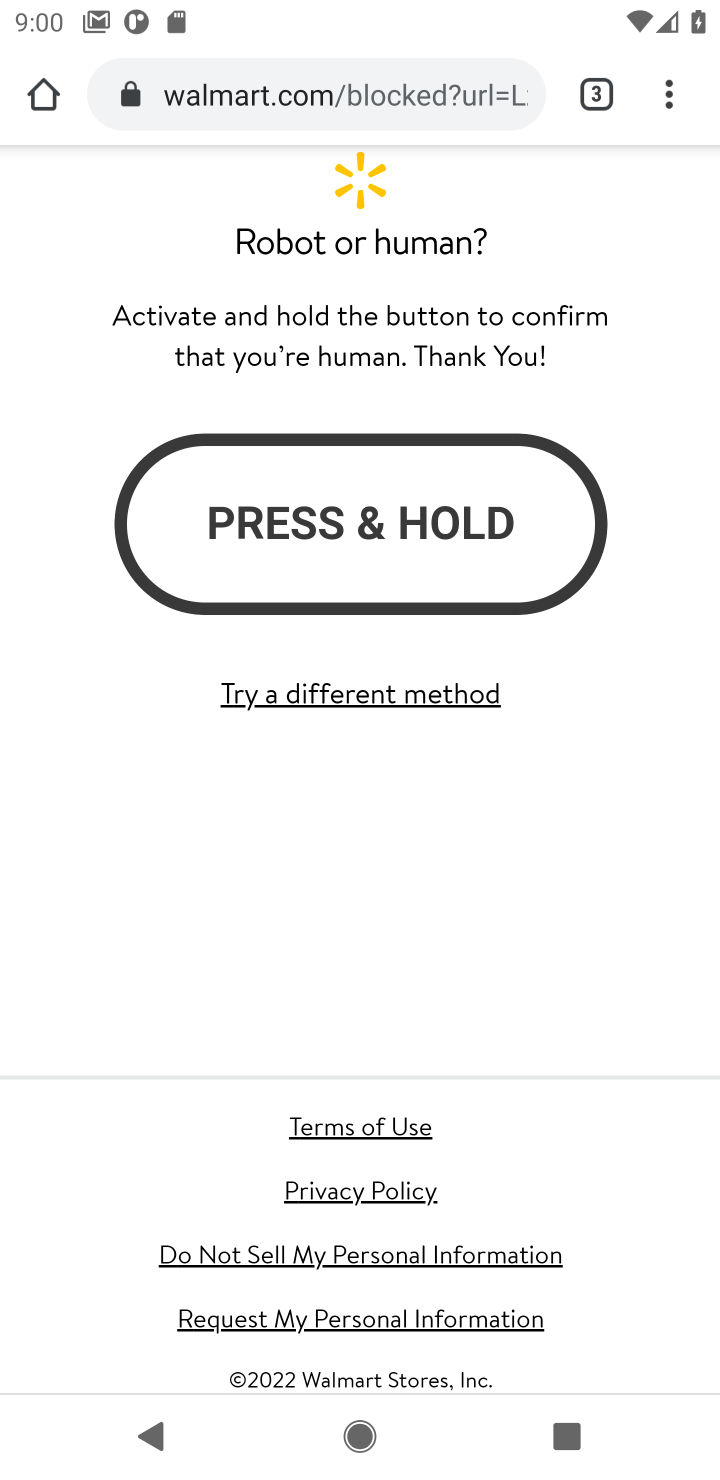
Step 31: press back button
Your task to perform on an android device: Search for the best rated 4k tvs on Walmart. Image 32: 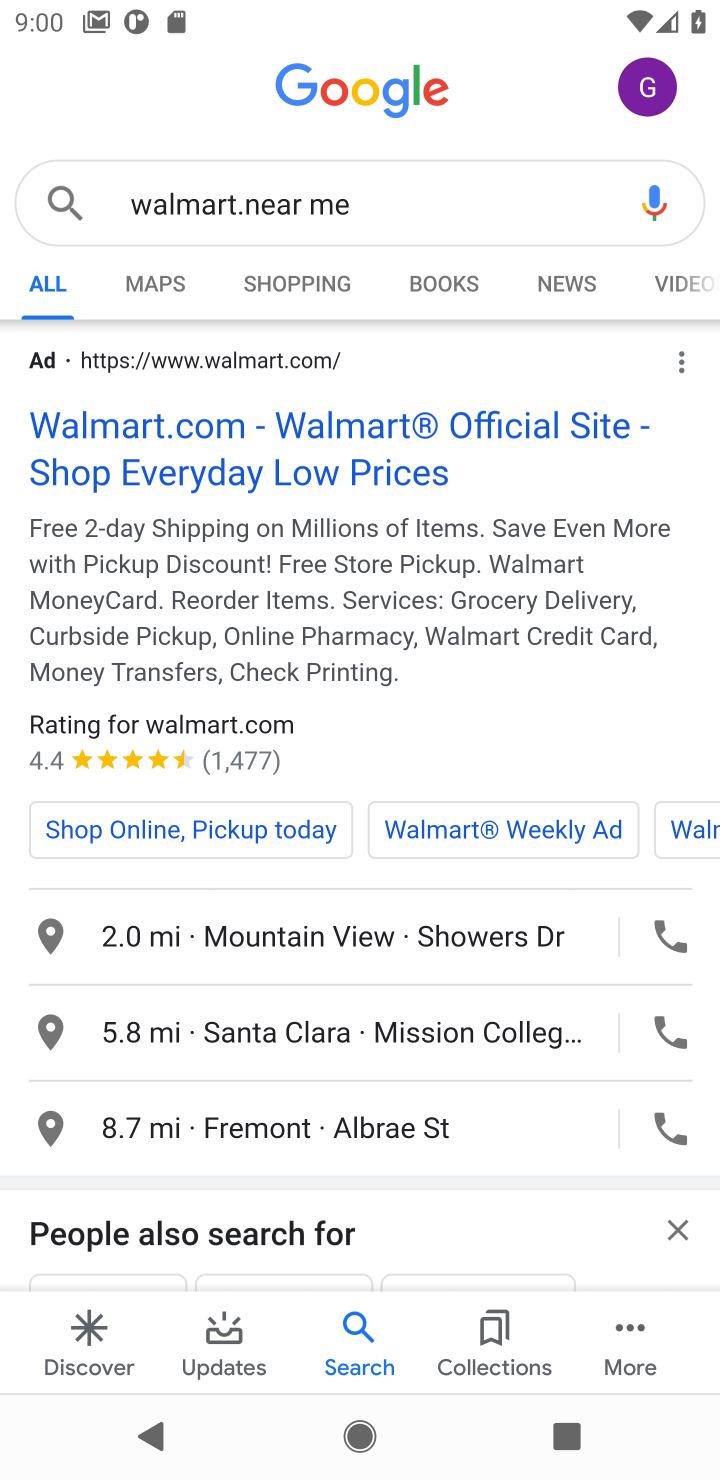
Step 32: drag from (475, 1166) to (543, 529)
Your task to perform on an android device: Search for the best rated 4k tvs on Walmart. Image 33: 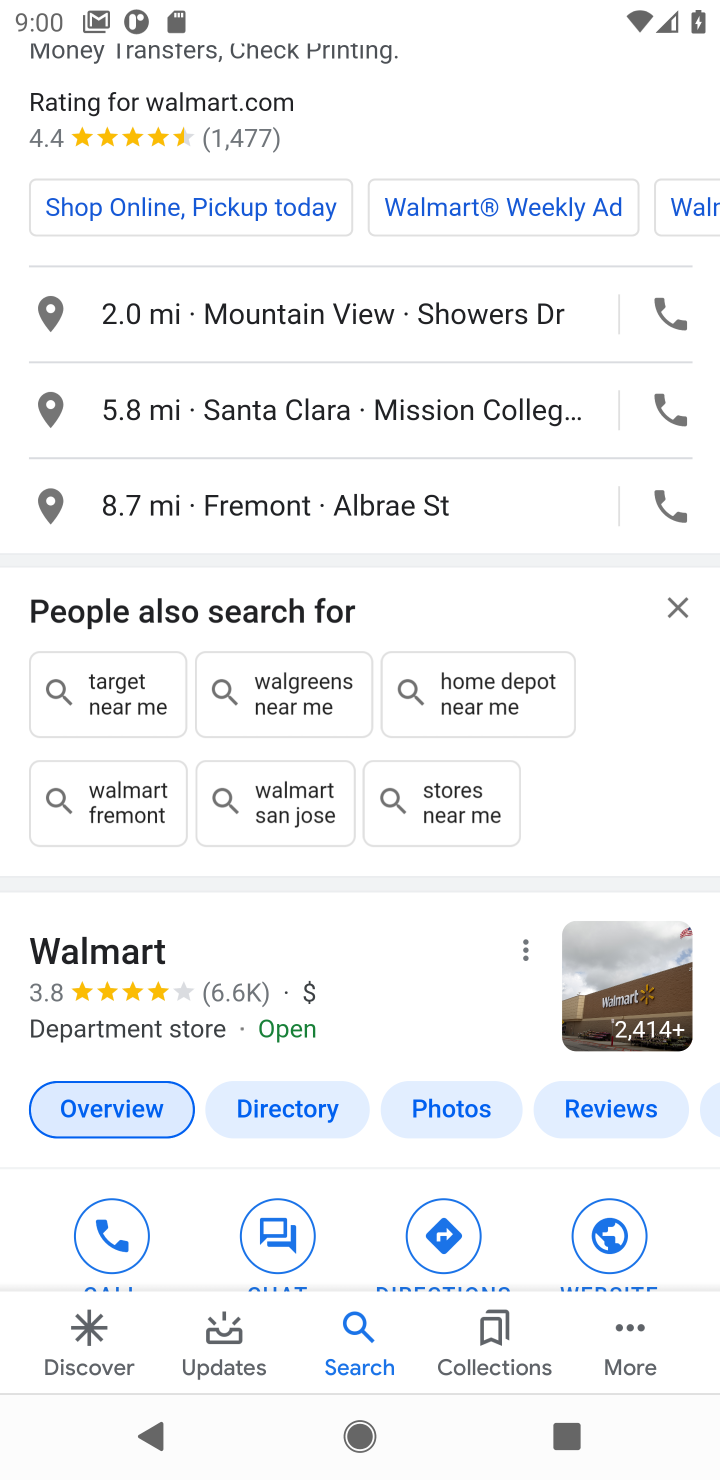
Step 33: drag from (388, 610) to (532, 177)
Your task to perform on an android device: Search for the best rated 4k tvs on Walmart. Image 34: 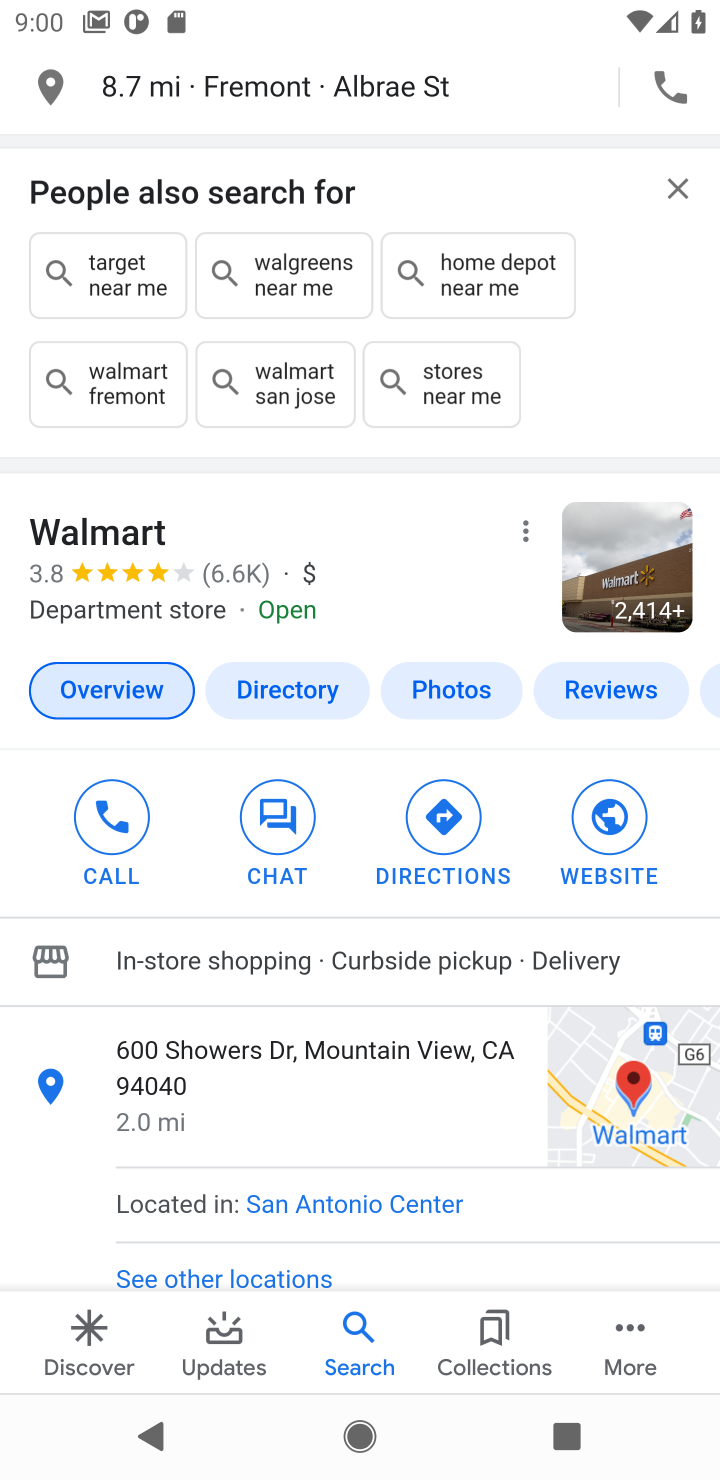
Step 34: drag from (309, 870) to (399, 75)
Your task to perform on an android device: Search for the best rated 4k tvs on Walmart. Image 35: 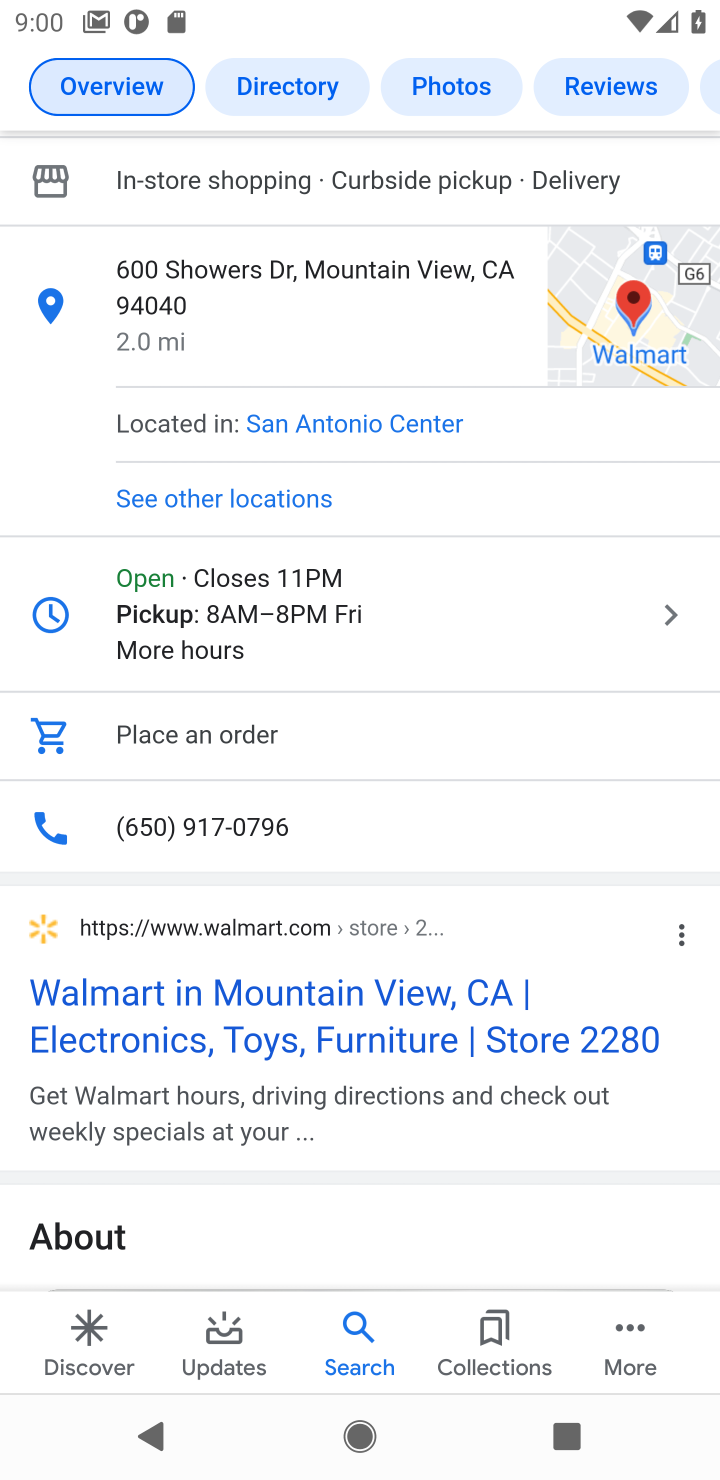
Step 35: click (357, 1022)
Your task to perform on an android device: Search for the best rated 4k tvs on Walmart. Image 36: 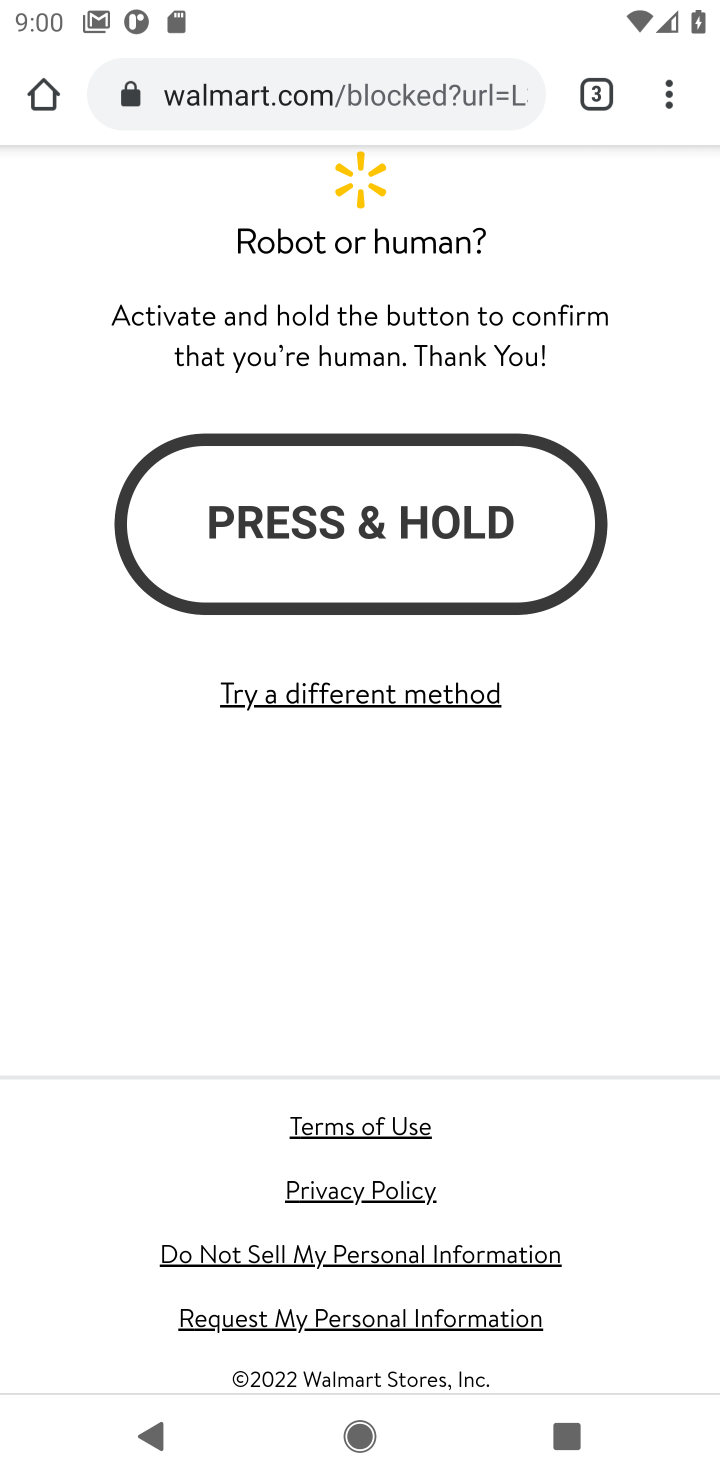
Step 36: click (436, 527)
Your task to perform on an android device: Search for the best rated 4k tvs on Walmart. Image 37: 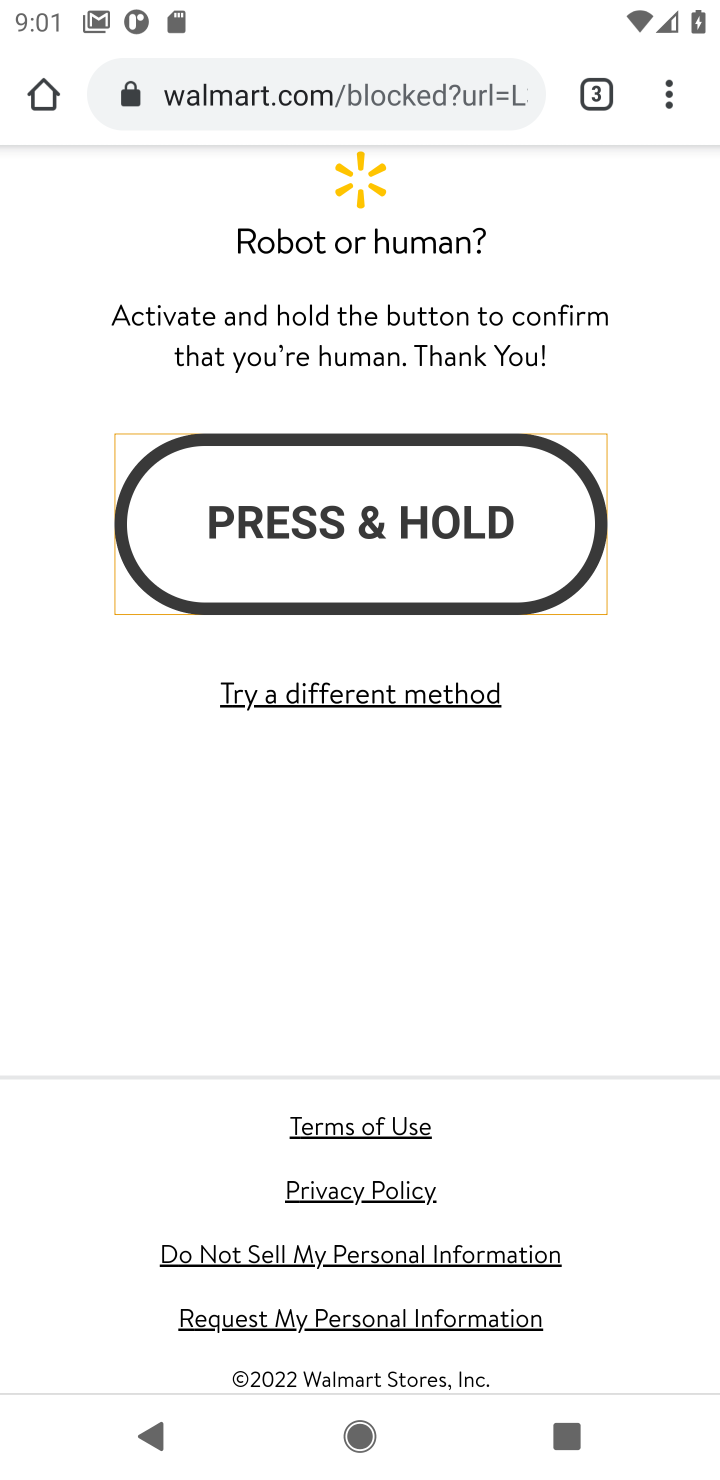
Step 37: click (393, 535)
Your task to perform on an android device: Search for the best rated 4k tvs on Walmart. Image 38: 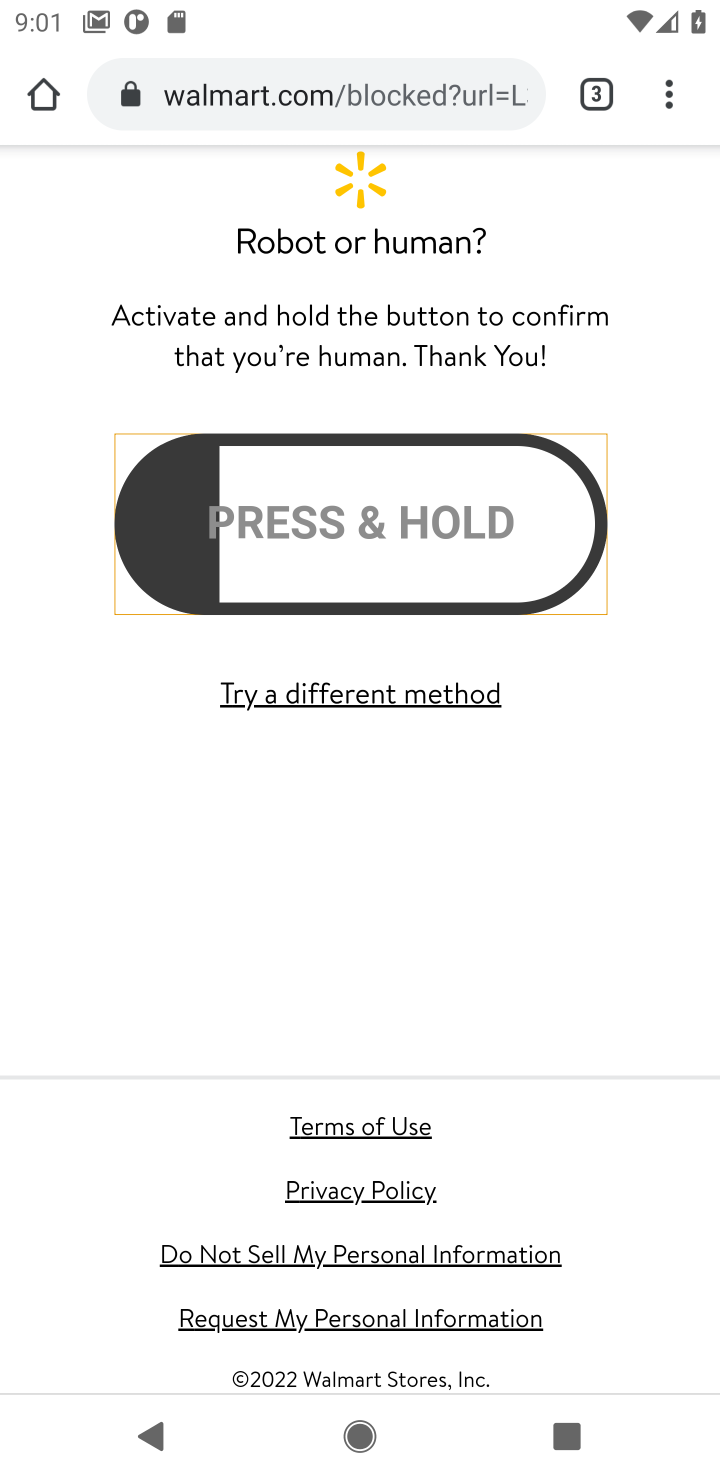
Step 38: click (454, 233)
Your task to perform on an android device: Search for the best rated 4k tvs on Walmart. Image 39: 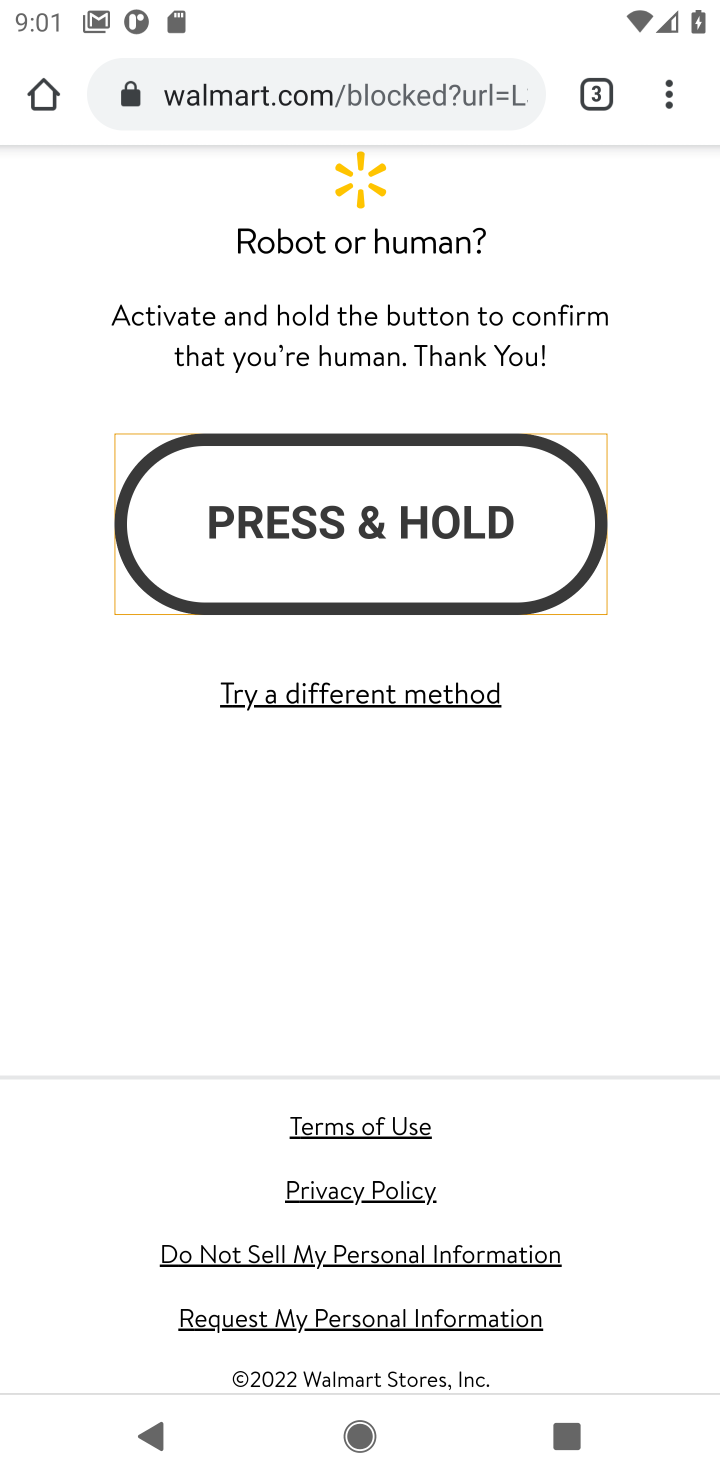
Step 39: press back button
Your task to perform on an android device: Search for the best rated 4k tvs on Walmart. Image 40: 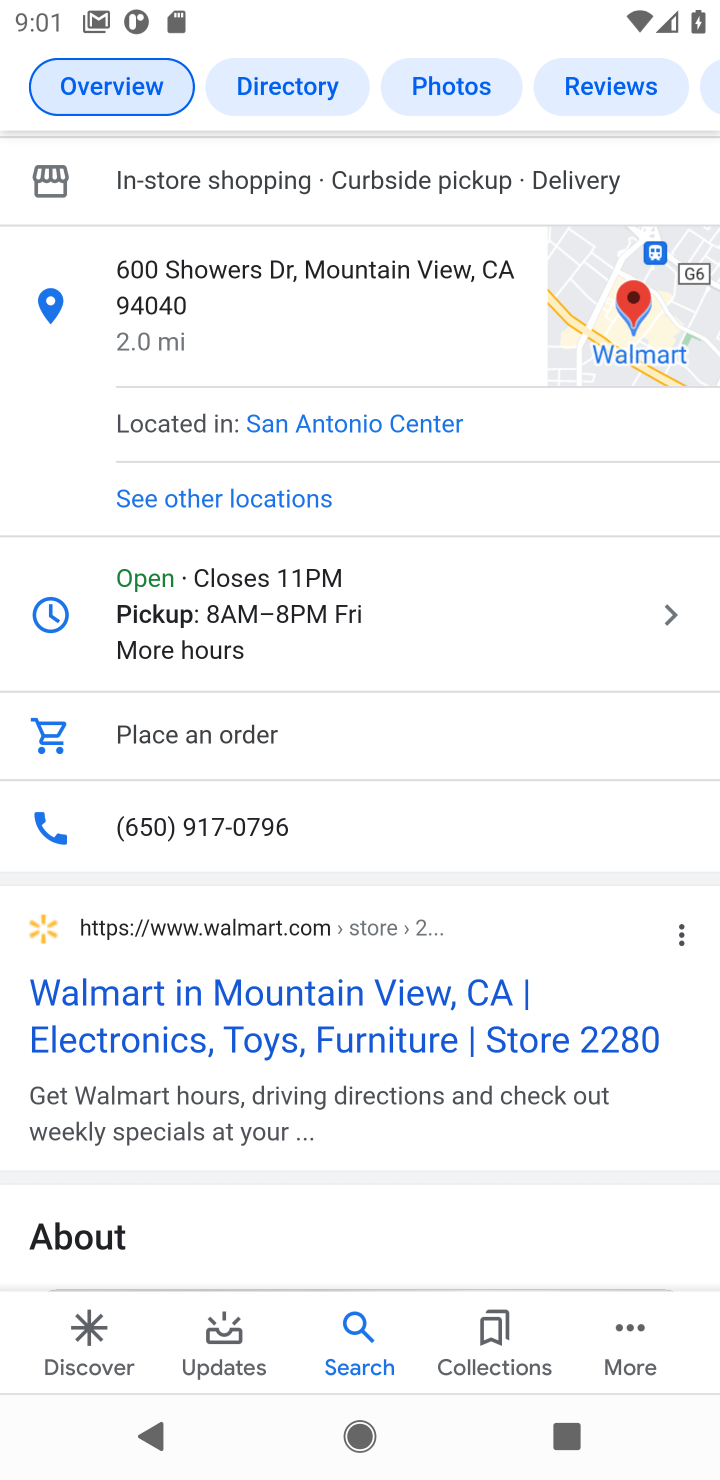
Step 40: drag from (303, 221) to (183, 1295)
Your task to perform on an android device: Search for the best rated 4k tvs on Walmart. Image 41: 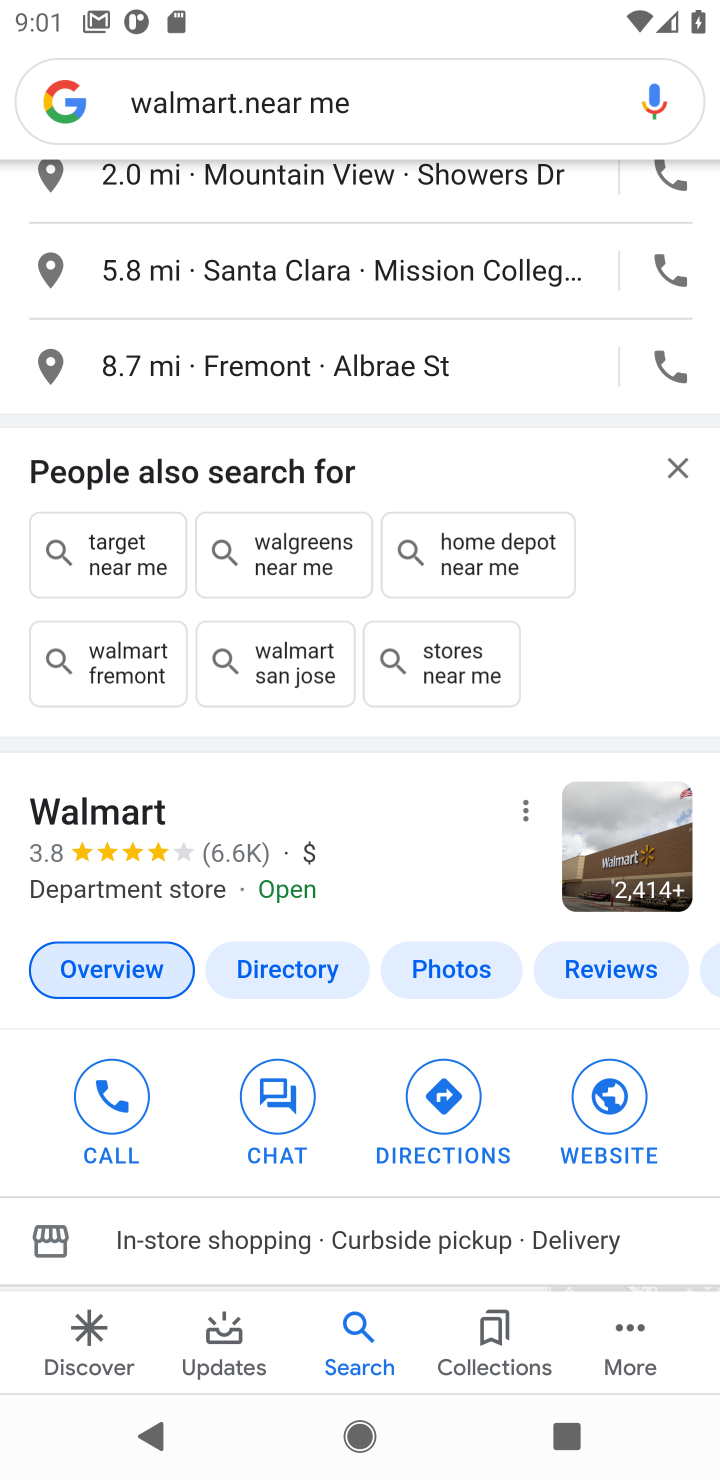
Step 41: drag from (309, 656) to (326, 1440)
Your task to perform on an android device: Search for the best rated 4k tvs on Walmart. Image 42: 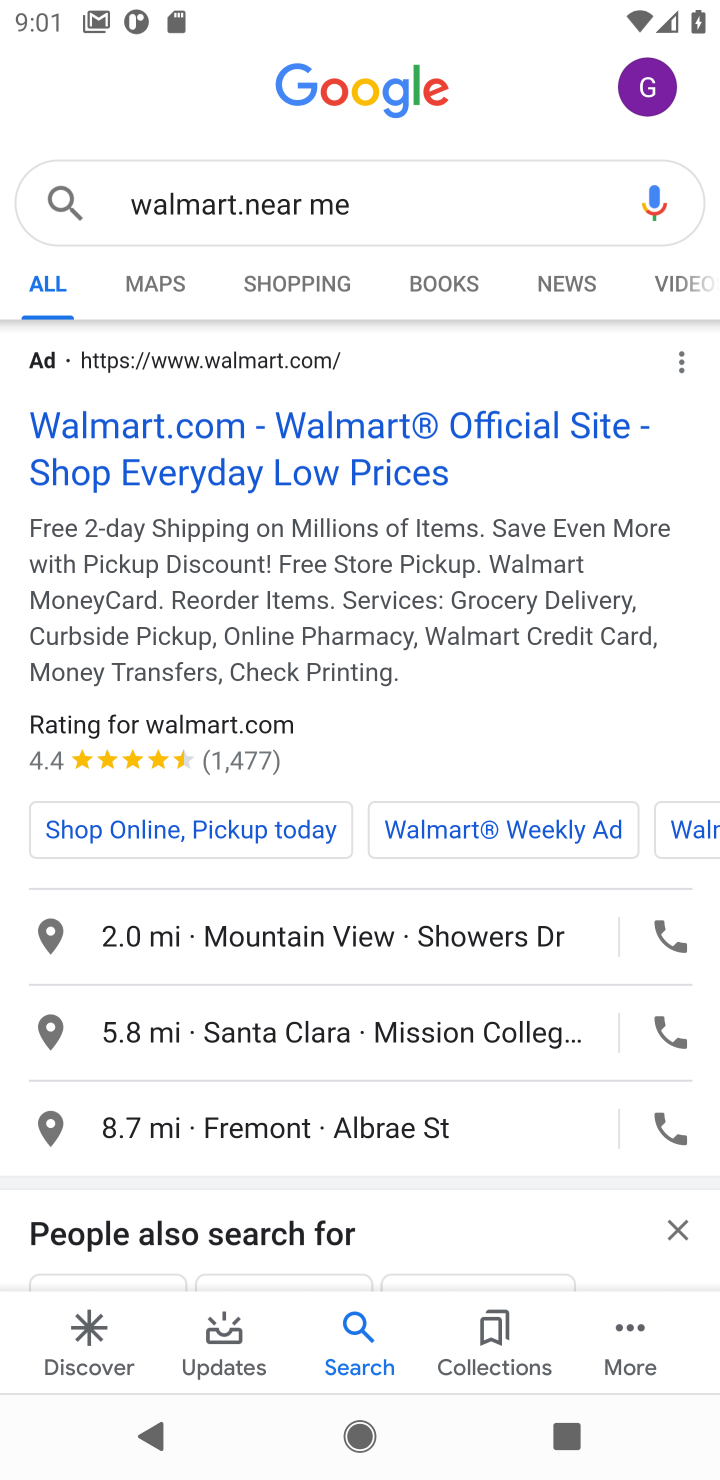
Step 42: click (316, 454)
Your task to perform on an android device: Search for the best rated 4k tvs on Walmart. Image 43: 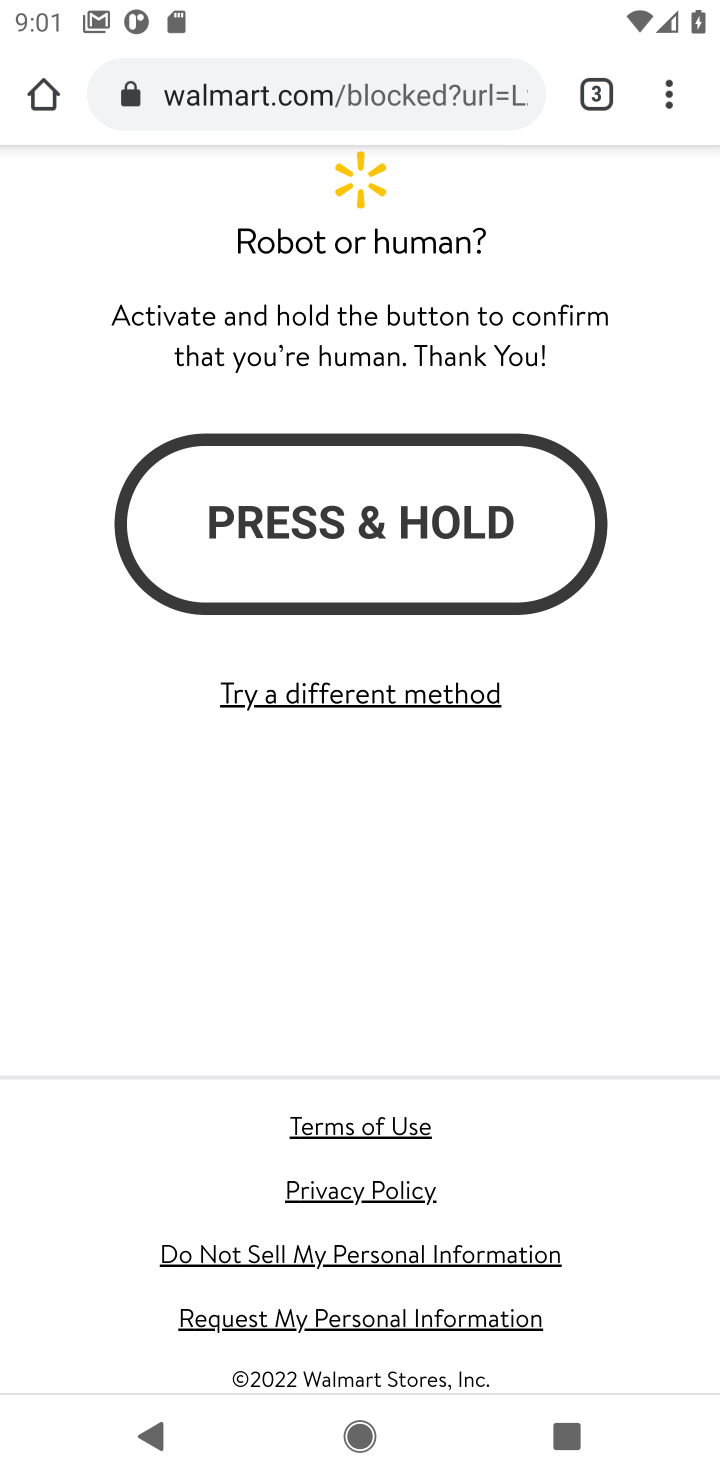
Step 43: task complete